Your task to perform on an android device: Search for razer blackwidow on ebay, select the first entry, add it to the cart, then select checkout. Image 0: 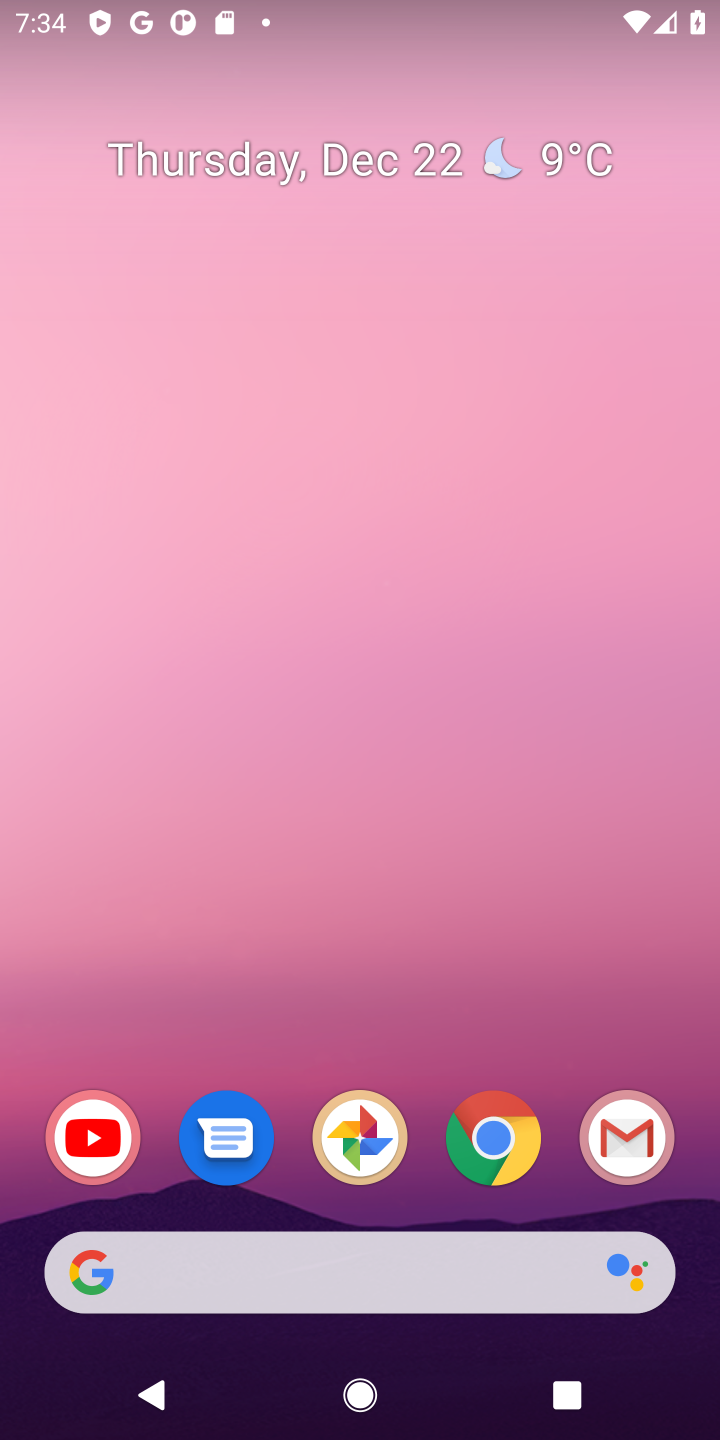
Step 0: press home button
Your task to perform on an android device: Search for razer blackwidow on ebay, select the first entry, add it to the cart, then select checkout. Image 1: 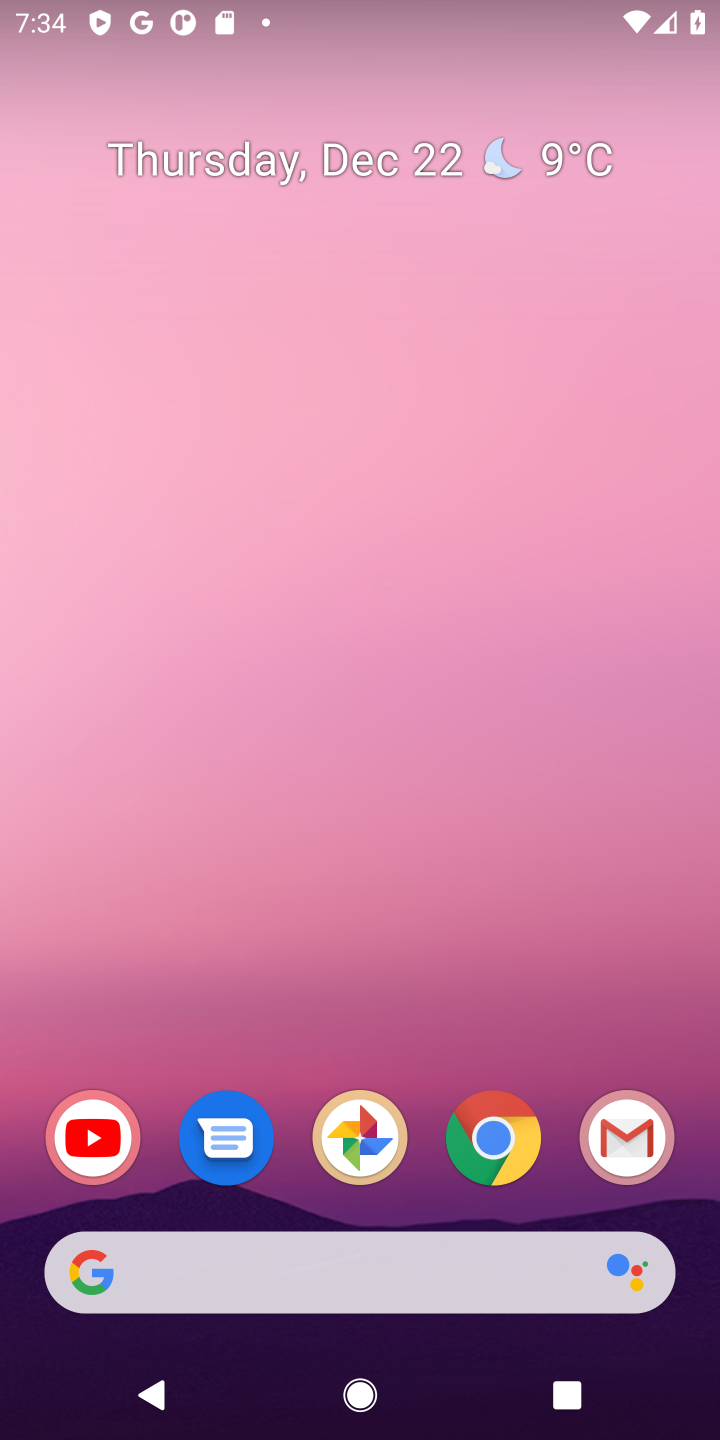
Step 1: click (514, 1114)
Your task to perform on an android device: Search for razer blackwidow on ebay, select the first entry, add it to the cart, then select checkout. Image 2: 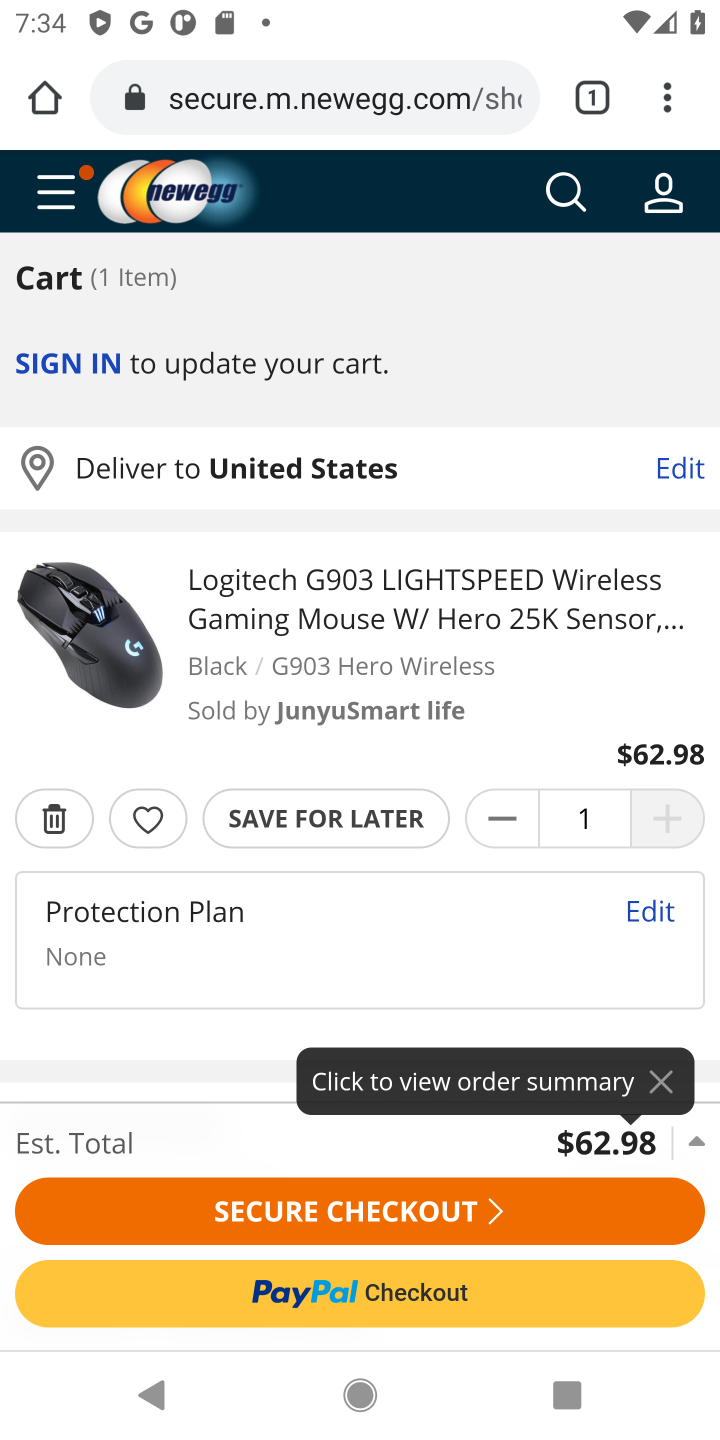
Step 2: click (383, 100)
Your task to perform on an android device: Search for razer blackwidow on ebay, select the first entry, add it to the cart, then select checkout. Image 3: 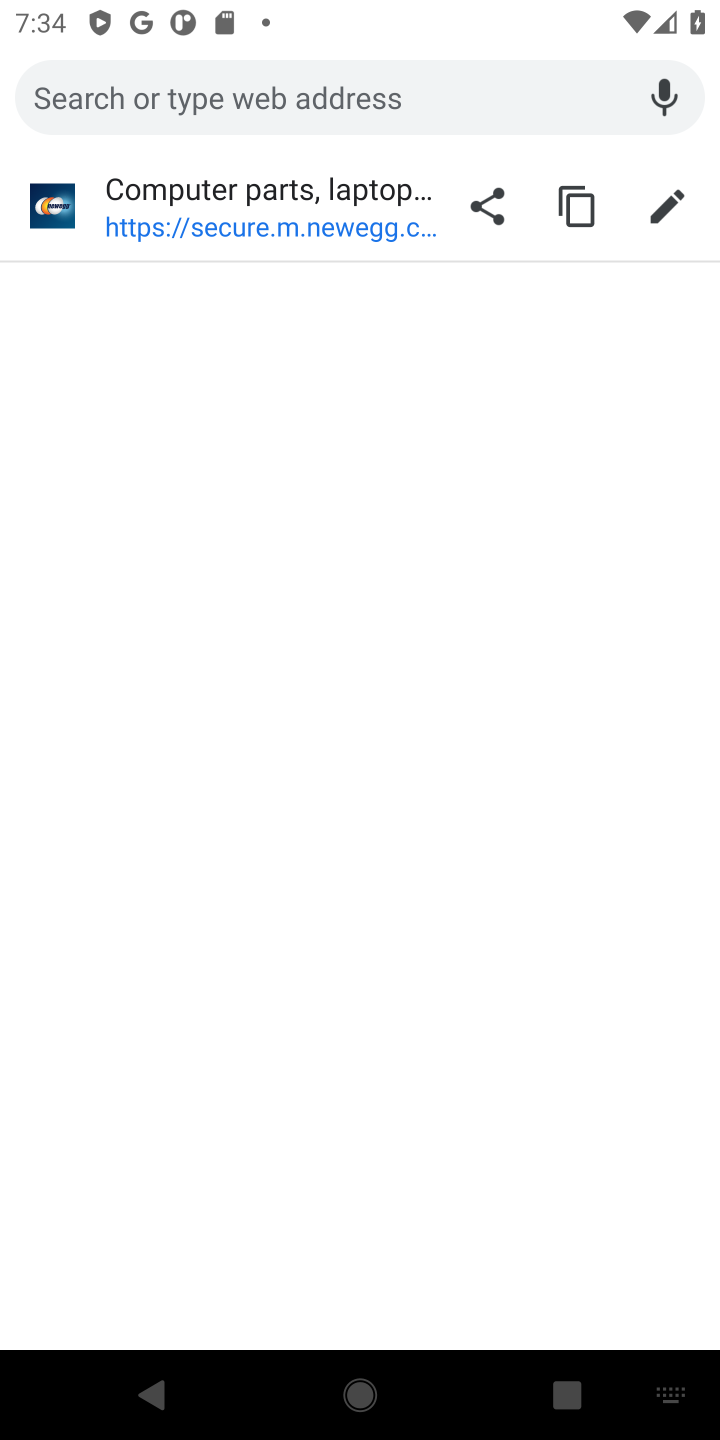
Step 3: type "ebay"
Your task to perform on an android device: Search for razer blackwidow on ebay, select the first entry, add it to the cart, then select checkout. Image 4: 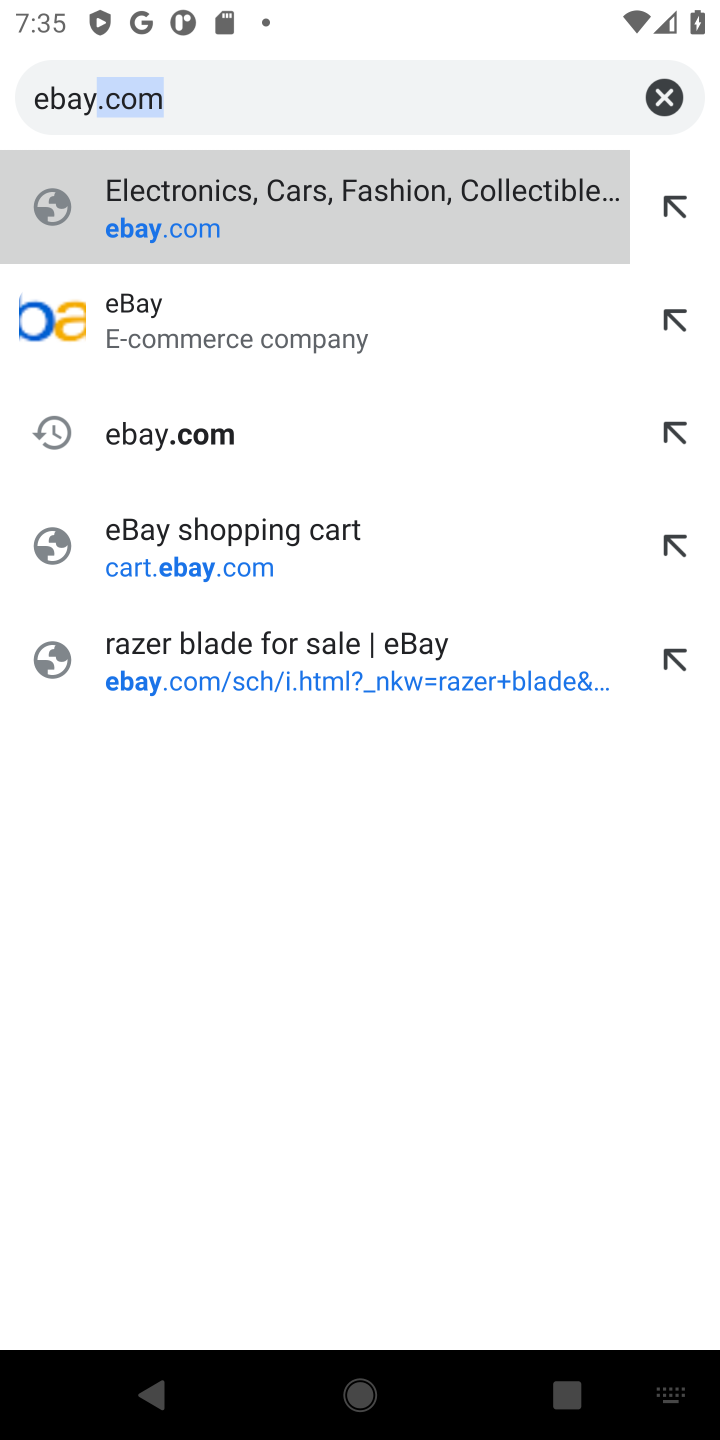
Step 4: click (210, 421)
Your task to perform on an android device: Search for razer blackwidow on ebay, select the first entry, add it to the cart, then select checkout. Image 5: 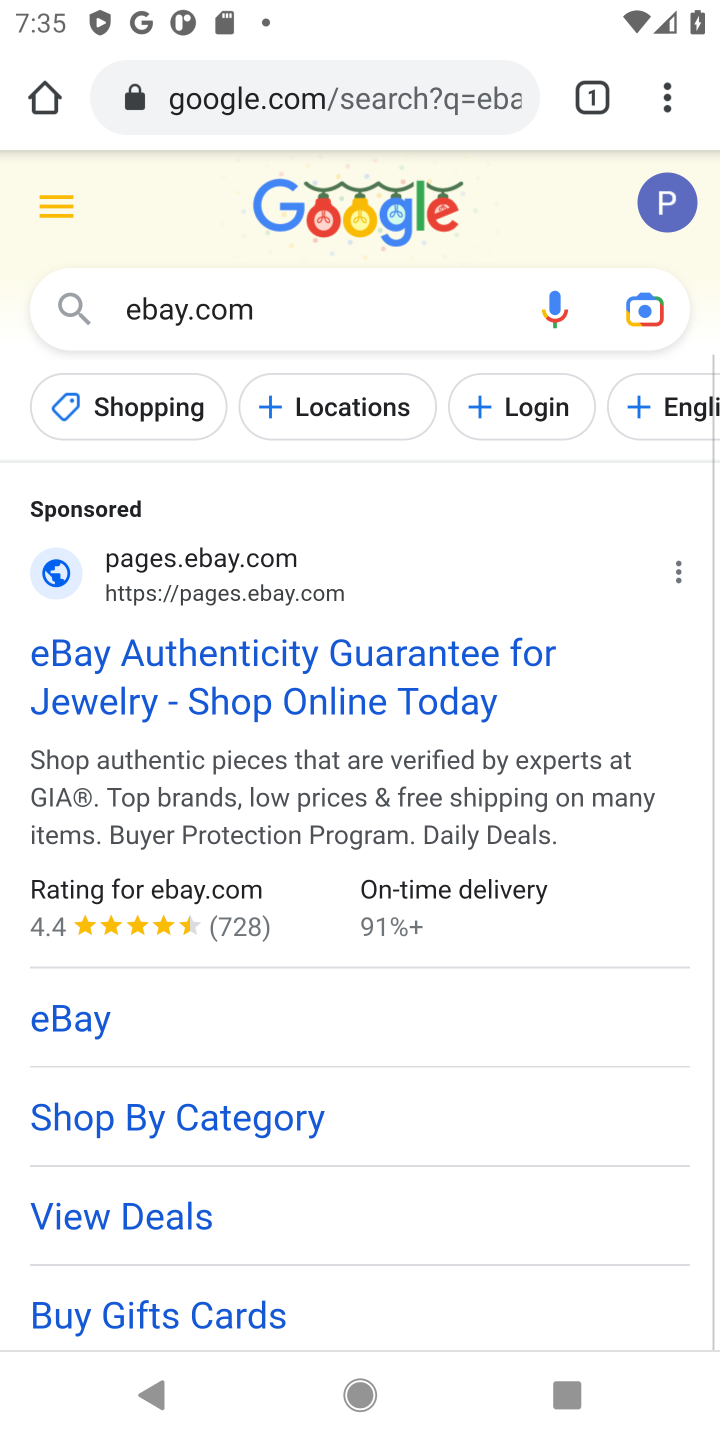
Step 5: drag from (347, 1119) to (262, 812)
Your task to perform on an android device: Search for razer blackwidow on ebay, select the first entry, add it to the cart, then select checkout. Image 6: 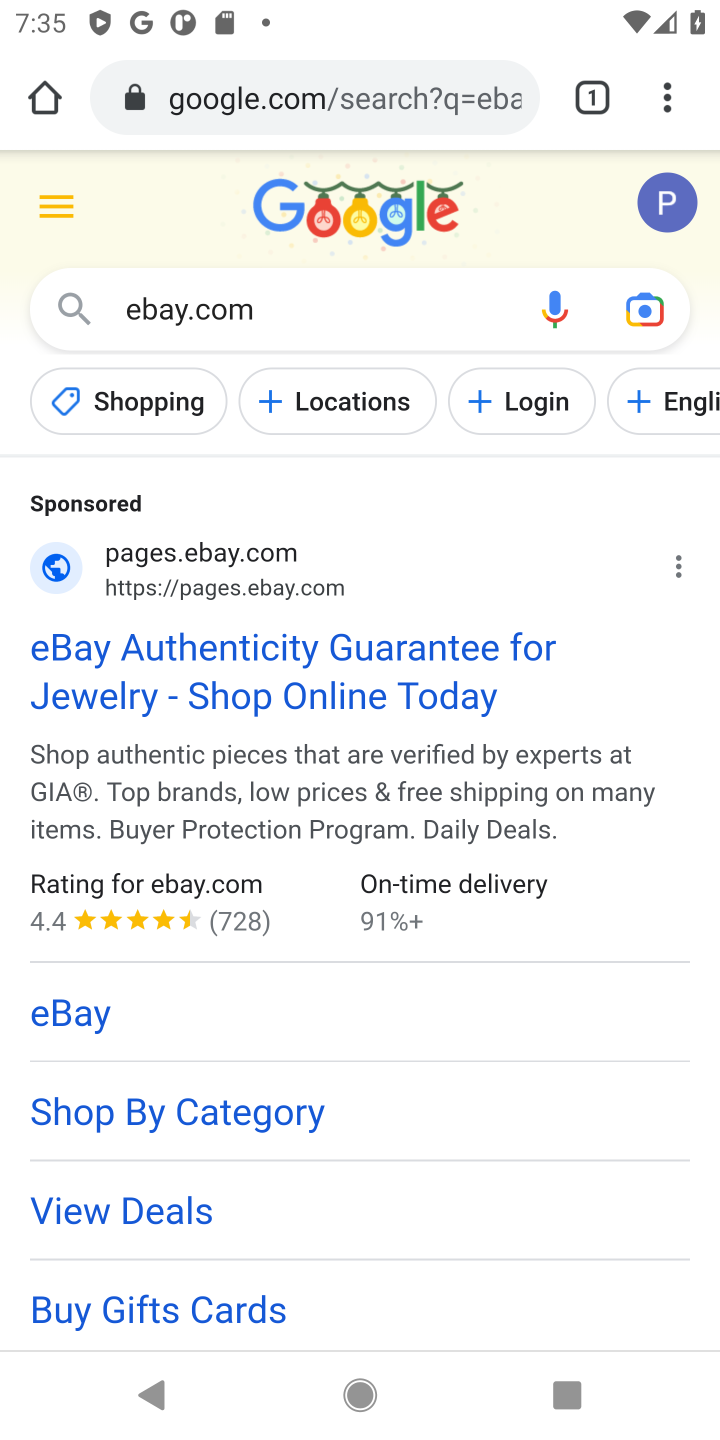
Step 6: click (262, 586)
Your task to perform on an android device: Search for razer blackwidow on ebay, select the first entry, add it to the cart, then select checkout. Image 7: 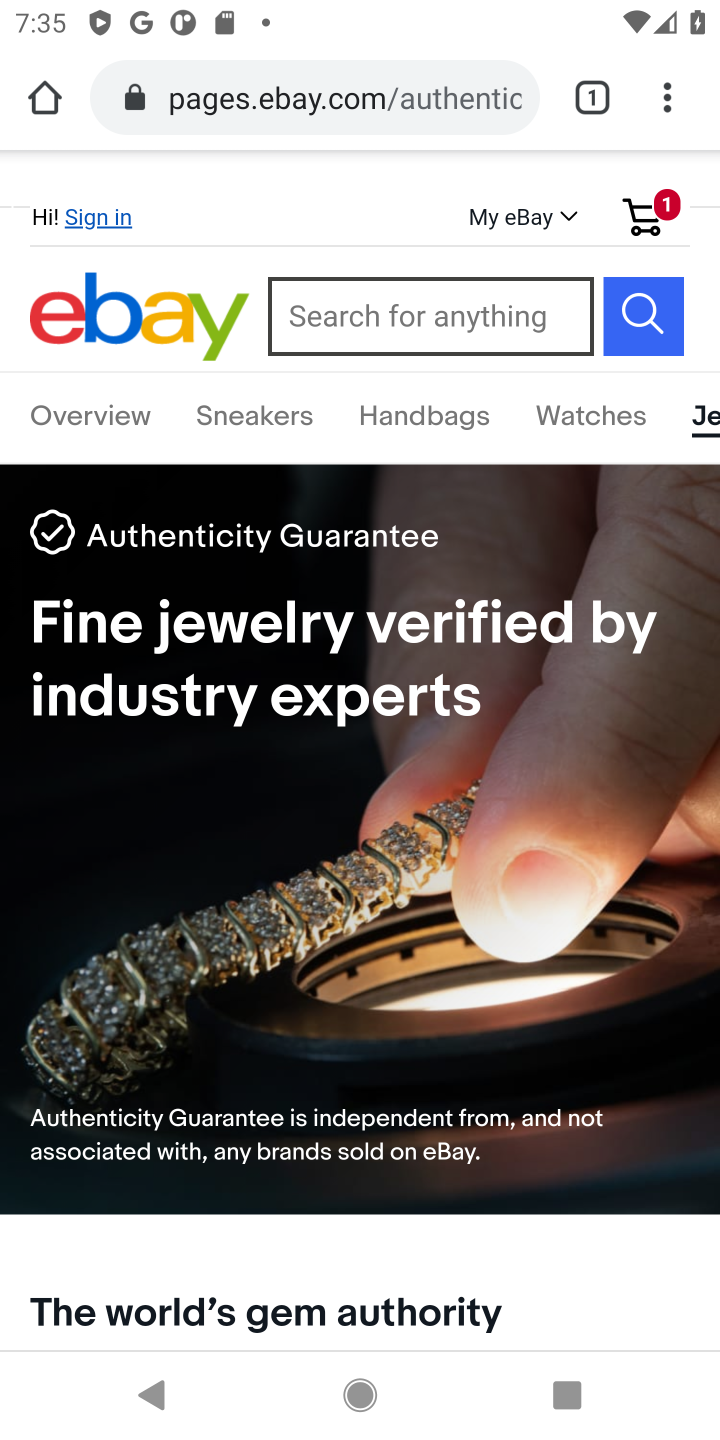
Step 7: click (433, 300)
Your task to perform on an android device: Search for razer blackwidow on ebay, select the first entry, add it to the cart, then select checkout. Image 8: 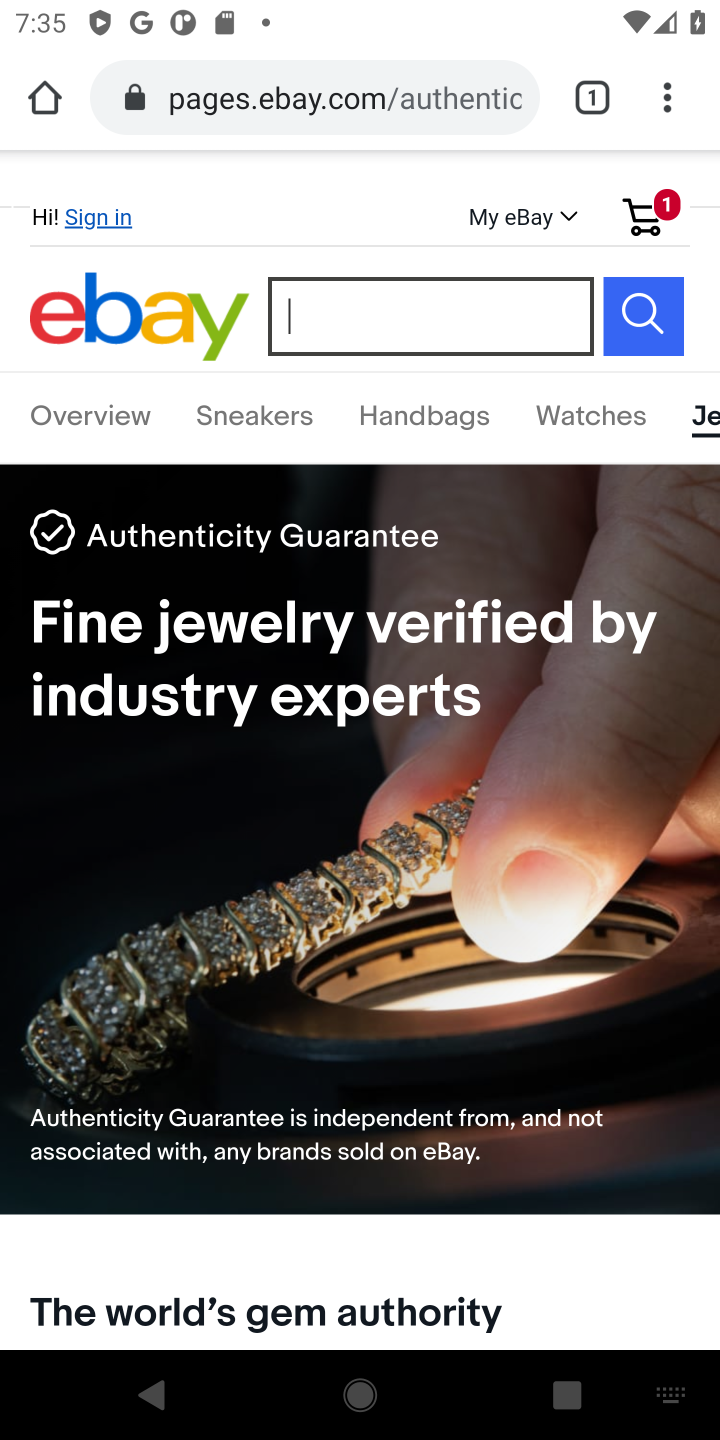
Step 8: type "razer blackwidow"
Your task to perform on an android device: Search for razer blackwidow on ebay, select the first entry, add it to the cart, then select checkout. Image 9: 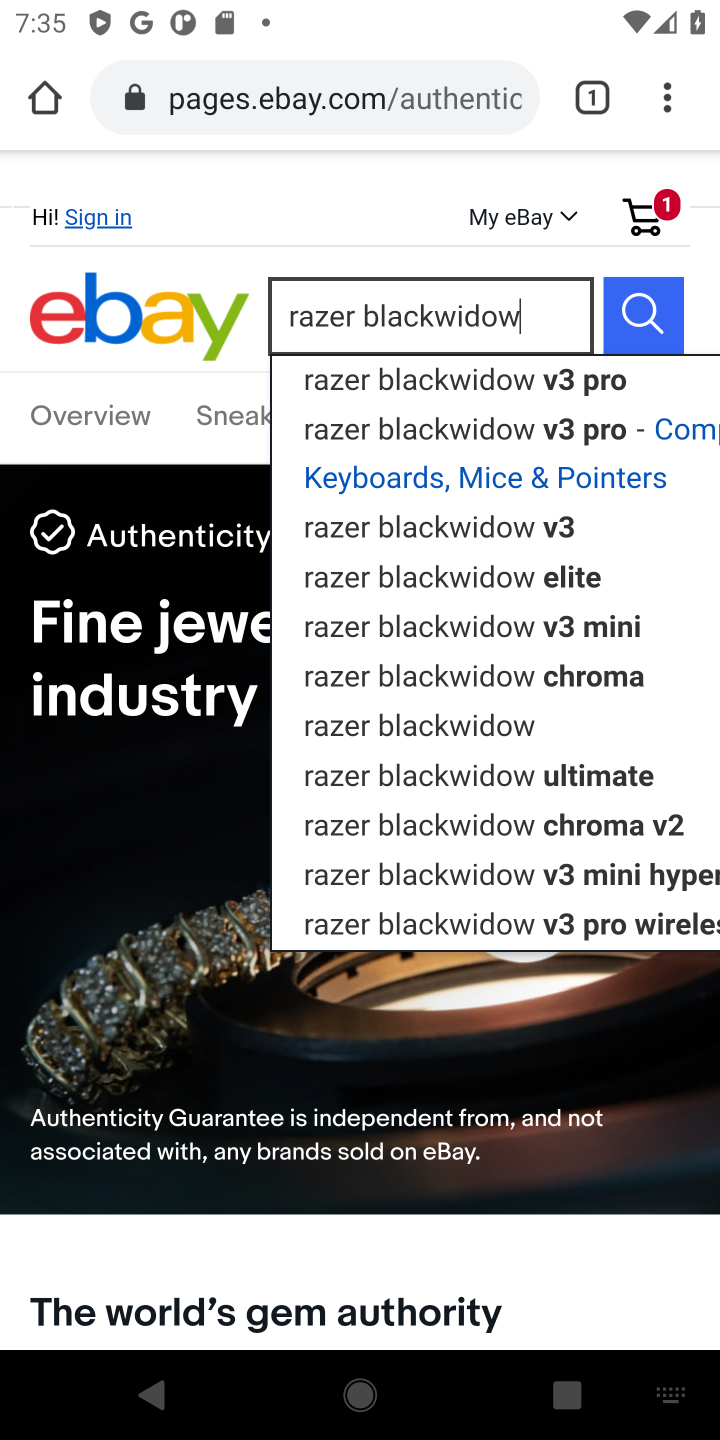
Step 9: click (651, 308)
Your task to perform on an android device: Search for razer blackwidow on ebay, select the first entry, add it to the cart, then select checkout. Image 10: 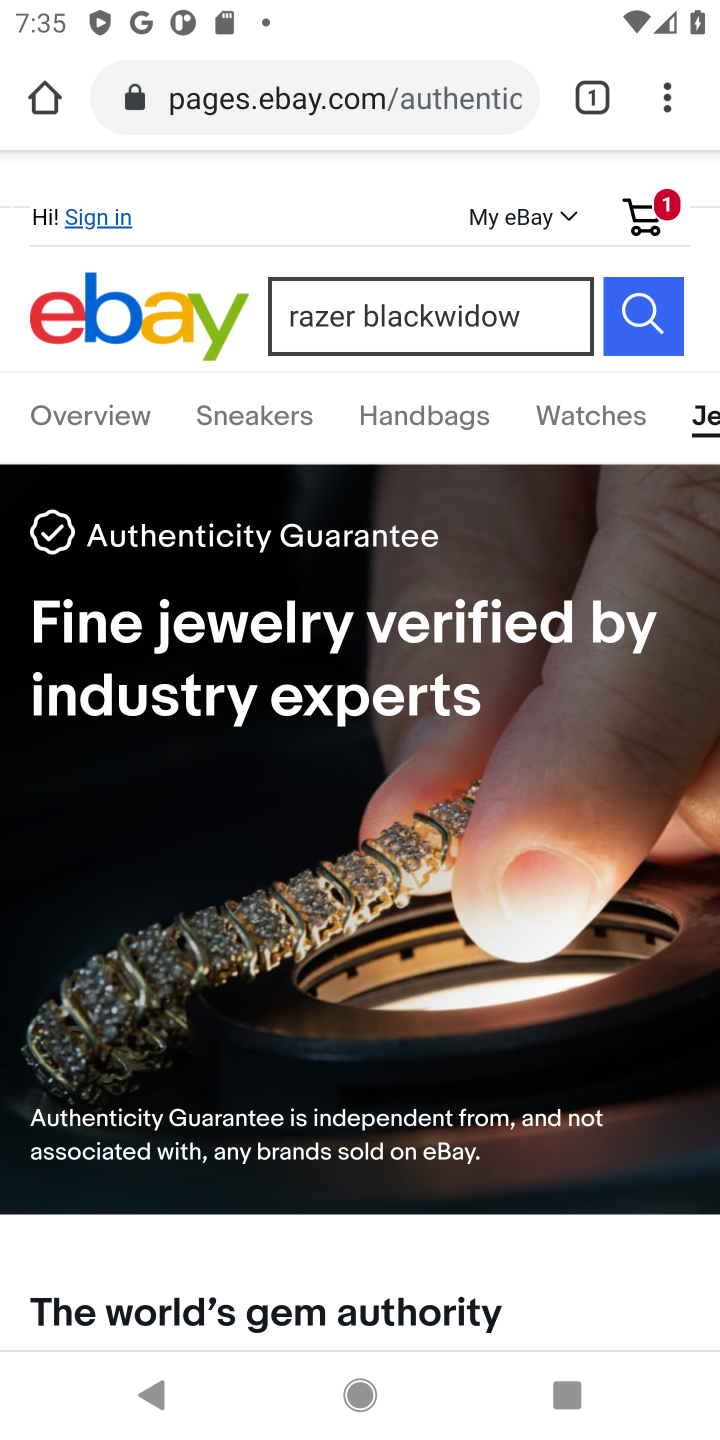
Step 10: click (642, 318)
Your task to perform on an android device: Search for razer blackwidow on ebay, select the first entry, add it to the cart, then select checkout. Image 11: 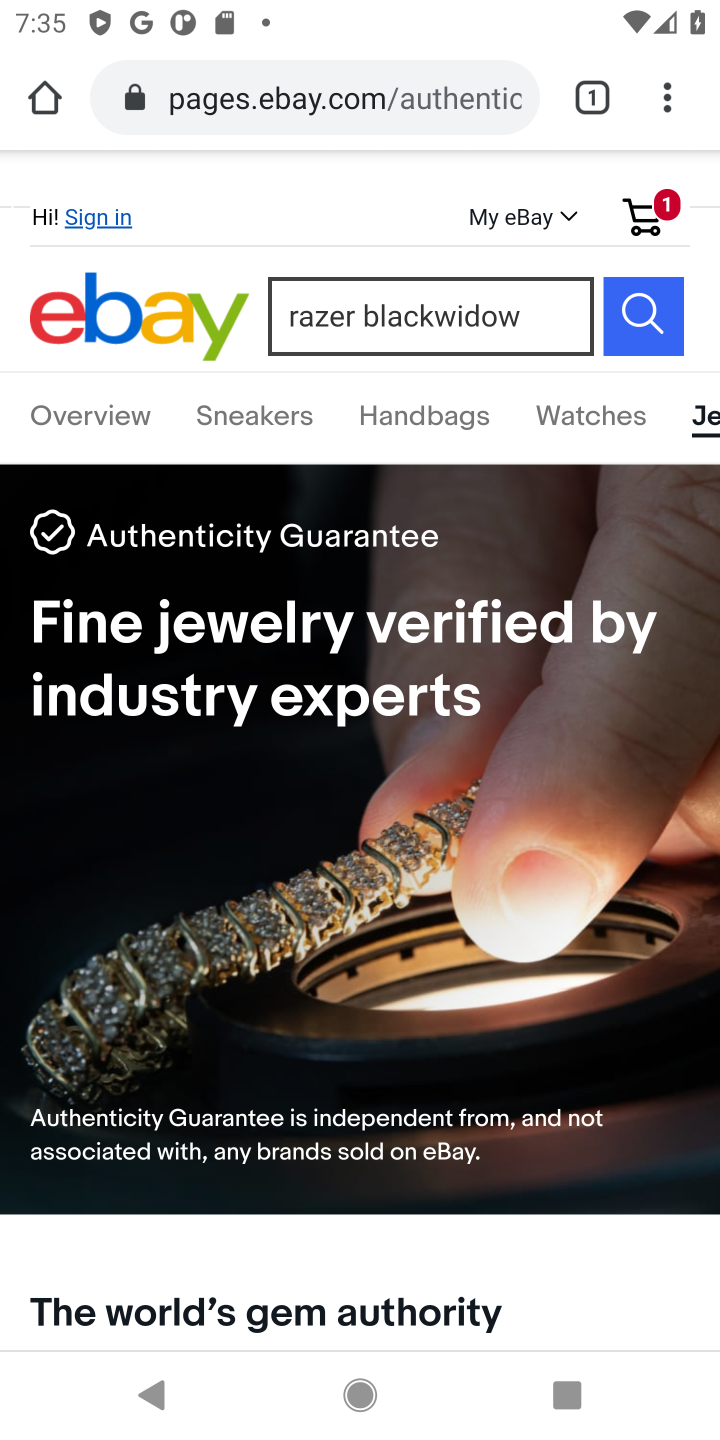
Step 11: click (642, 318)
Your task to perform on an android device: Search for razer blackwidow on ebay, select the first entry, add it to the cart, then select checkout. Image 12: 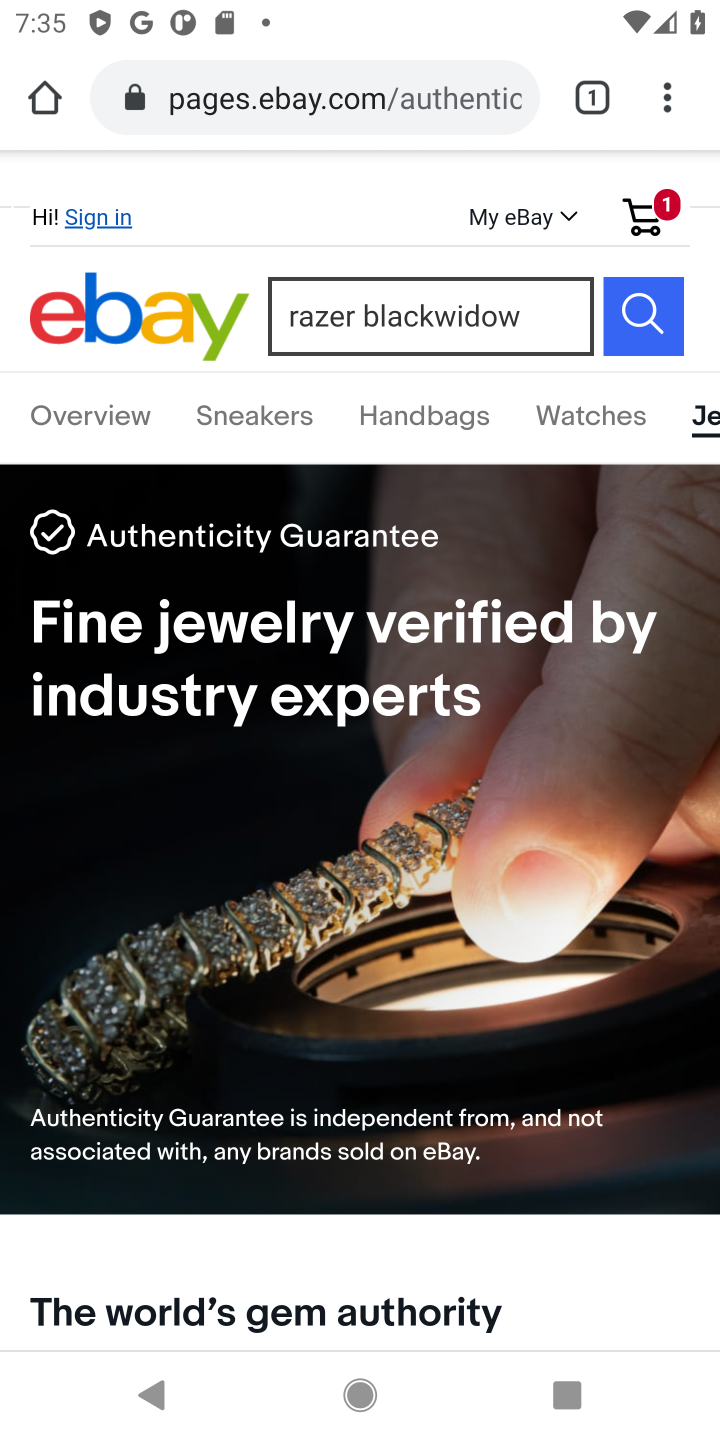
Step 12: click (640, 331)
Your task to perform on an android device: Search for razer blackwidow on ebay, select the first entry, add it to the cart, then select checkout. Image 13: 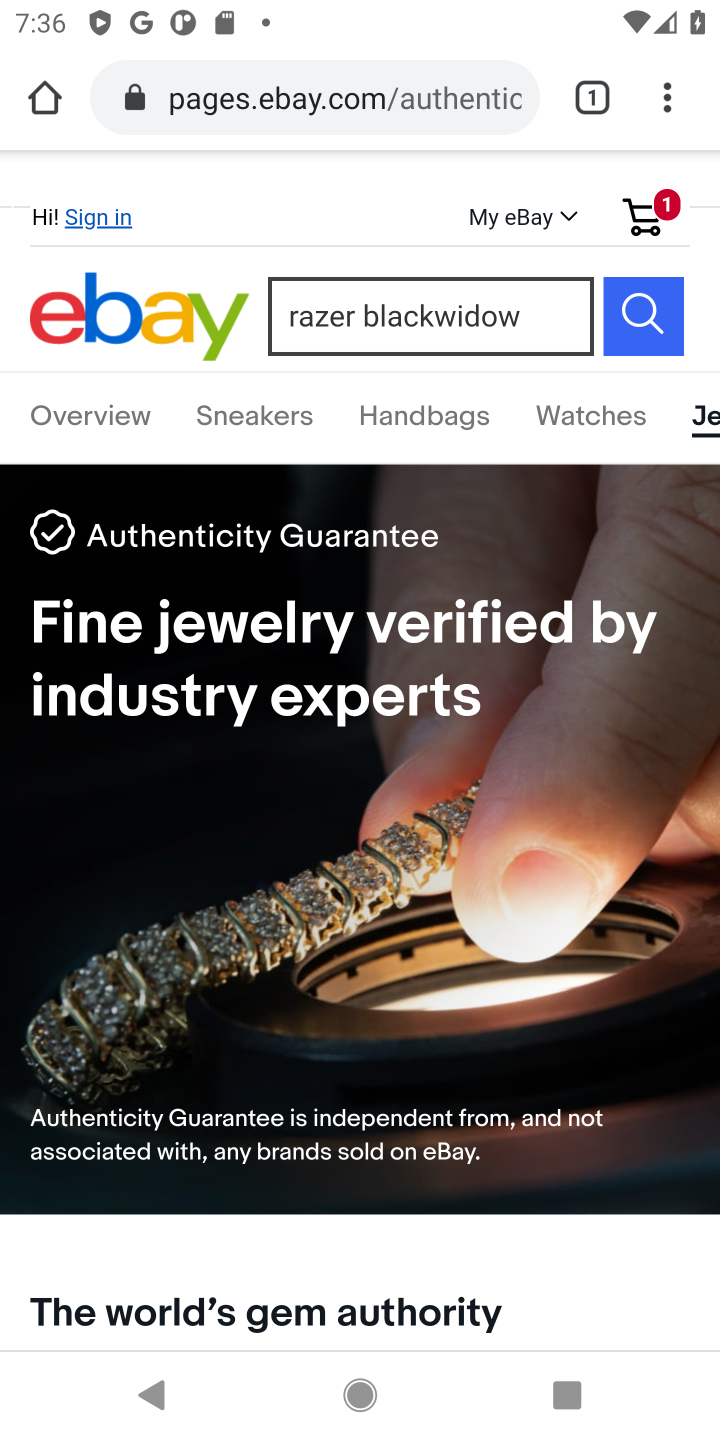
Step 13: click (656, 307)
Your task to perform on an android device: Search for razer blackwidow on ebay, select the first entry, add it to the cart, then select checkout. Image 14: 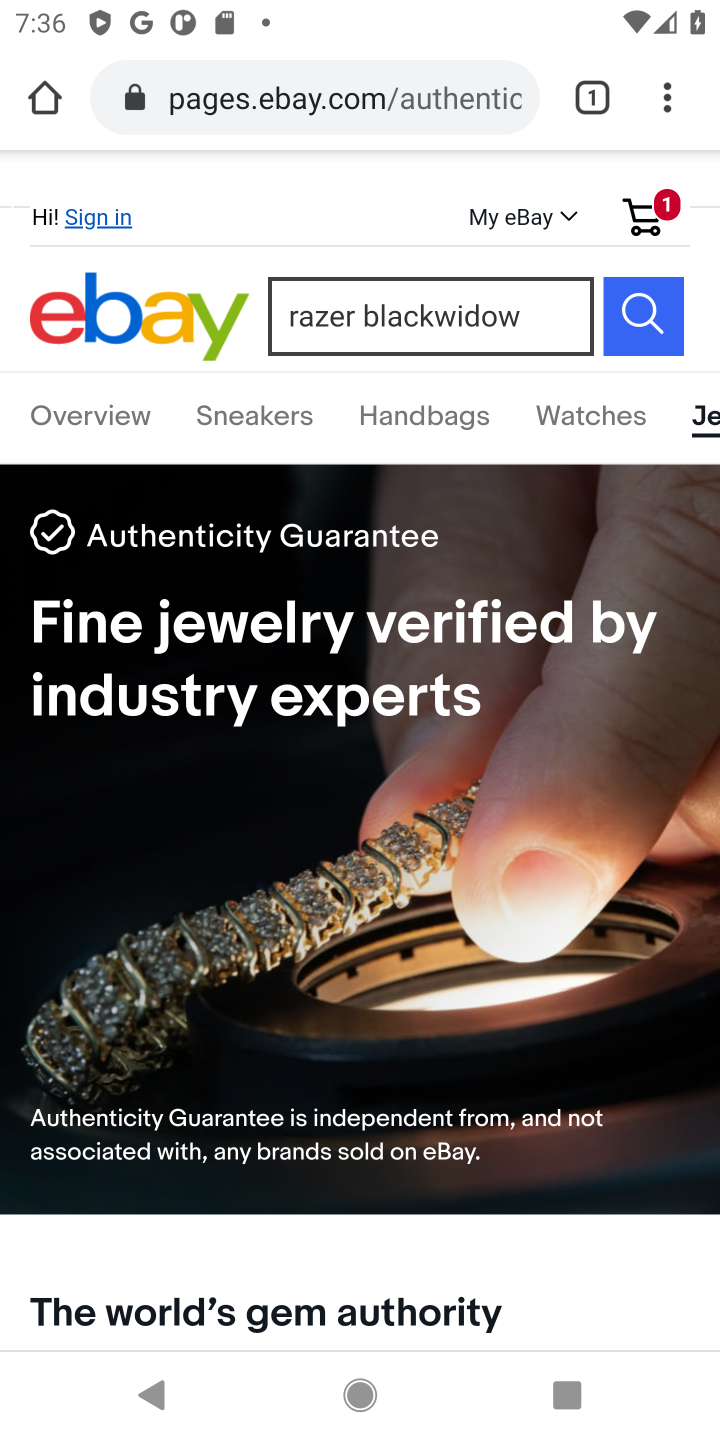
Step 14: click (656, 307)
Your task to perform on an android device: Search for razer blackwidow on ebay, select the first entry, add it to the cart, then select checkout. Image 15: 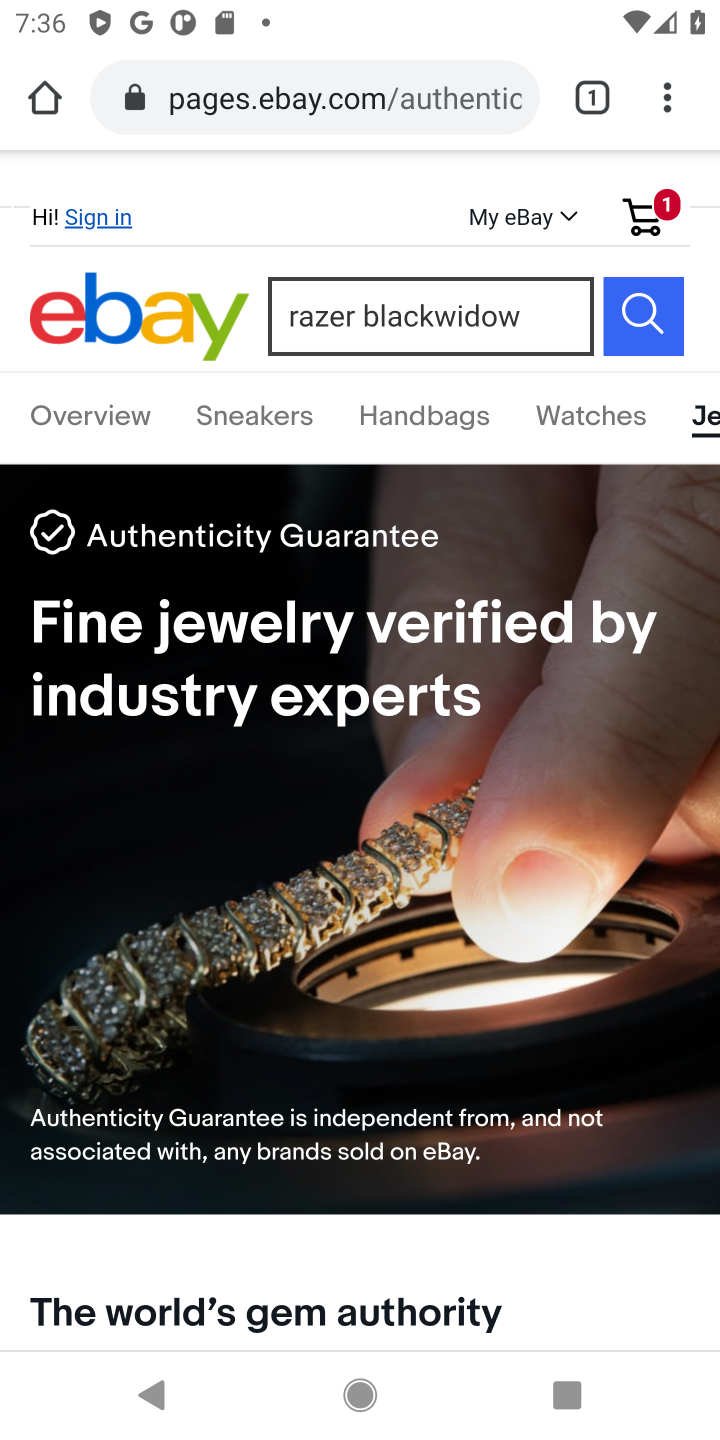
Step 15: click (640, 322)
Your task to perform on an android device: Search for razer blackwidow on ebay, select the first entry, add it to the cart, then select checkout. Image 16: 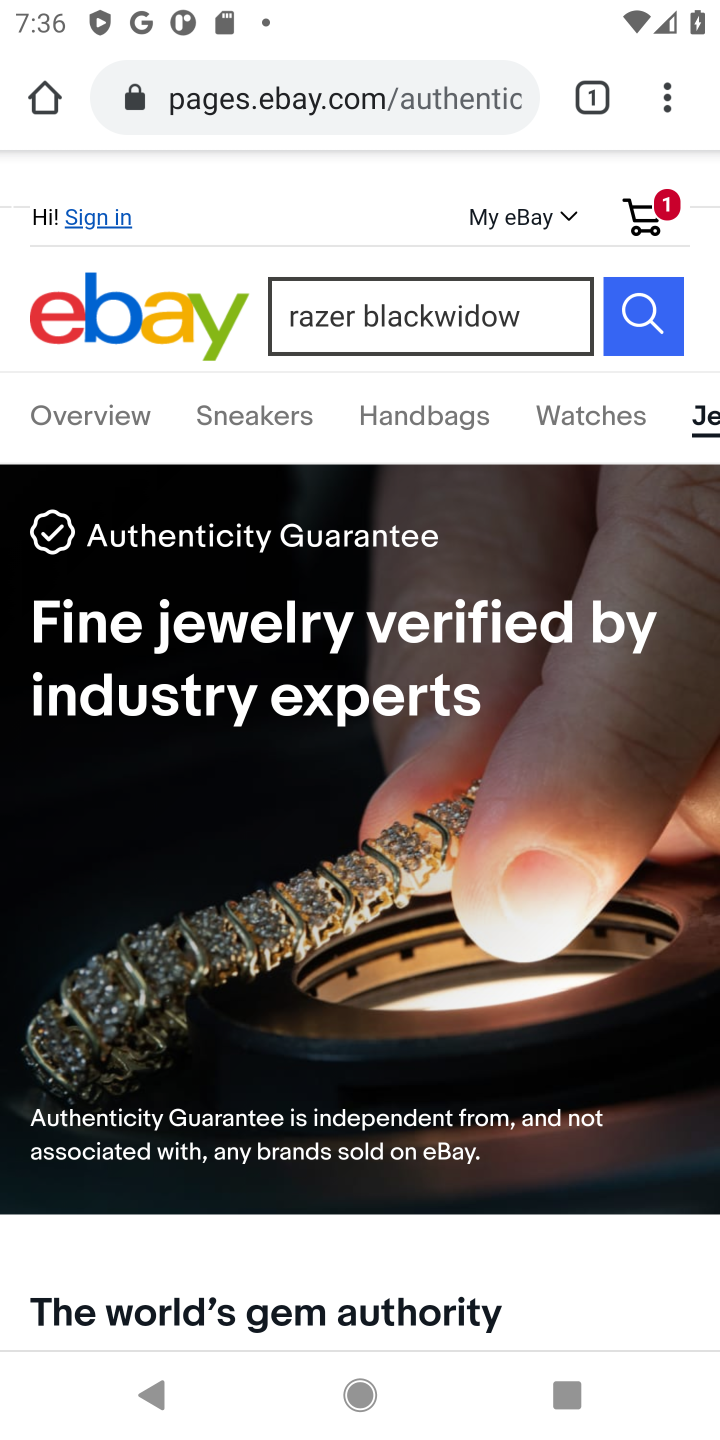
Step 16: click (640, 322)
Your task to perform on an android device: Search for razer blackwidow on ebay, select the first entry, add it to the cart, then select checkout. Image 17: 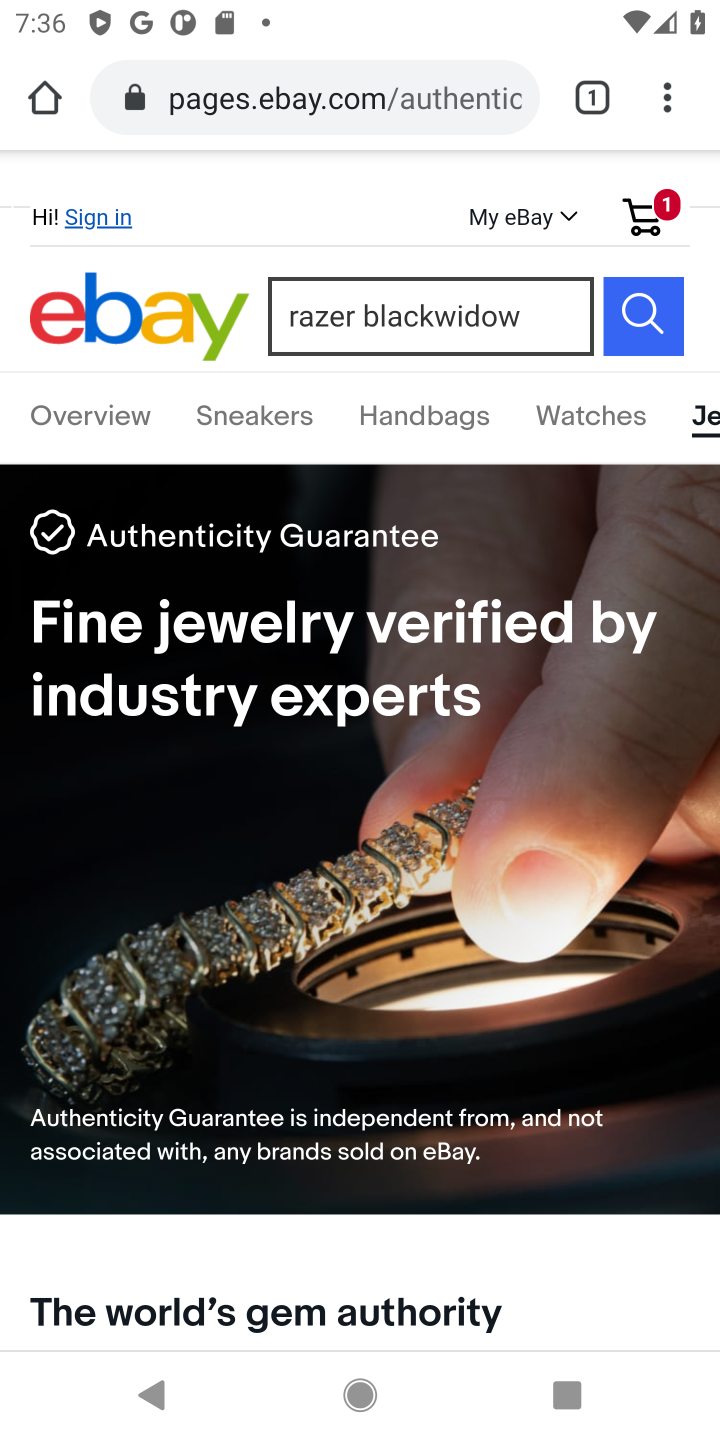
Step 17: click (640, 322)
Your task to perform on an android device: Search for razer blackwidow on ebay, select the first entry, add it to the cart, then select checkout. Image 18: 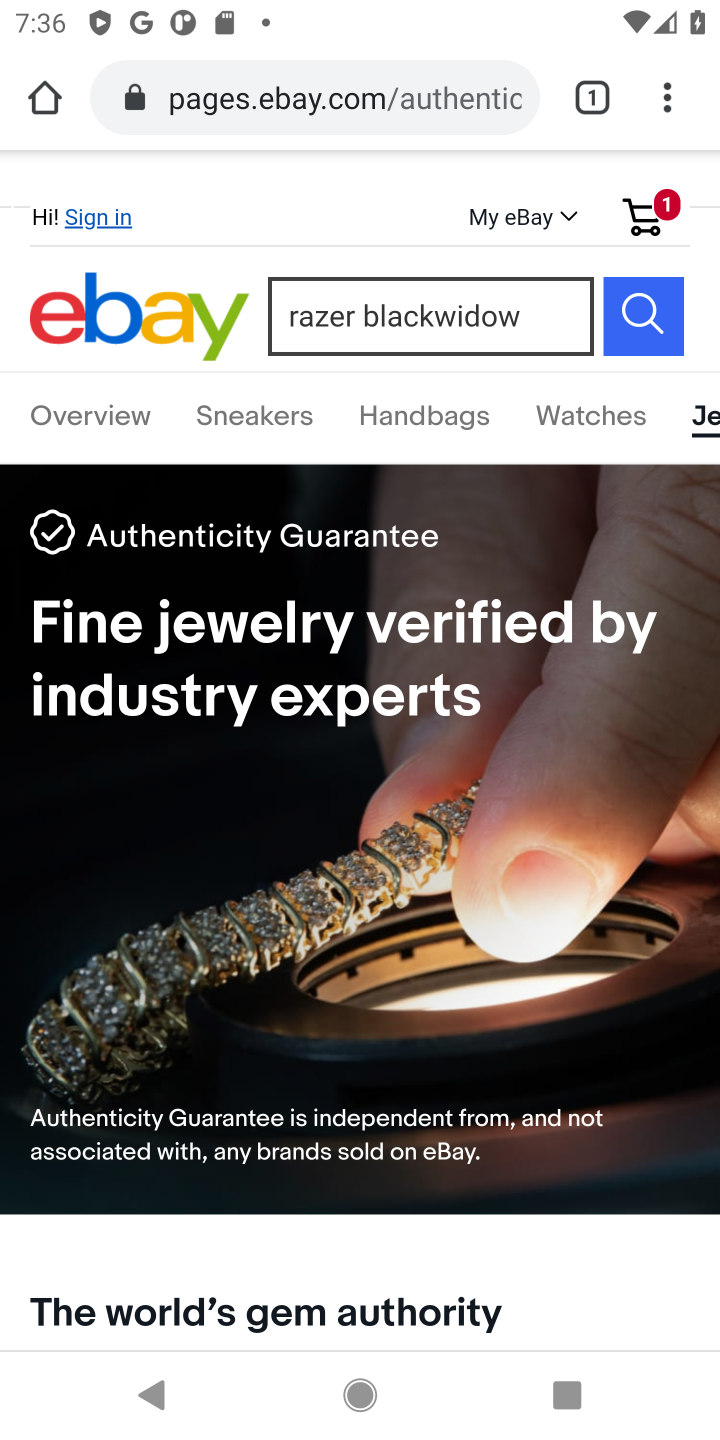
Step 18: press back button
Your task to perform on an android device: Search for razer blackwidow on ebay, select the first entry, add it to the cart, then select checkout. Image 19: 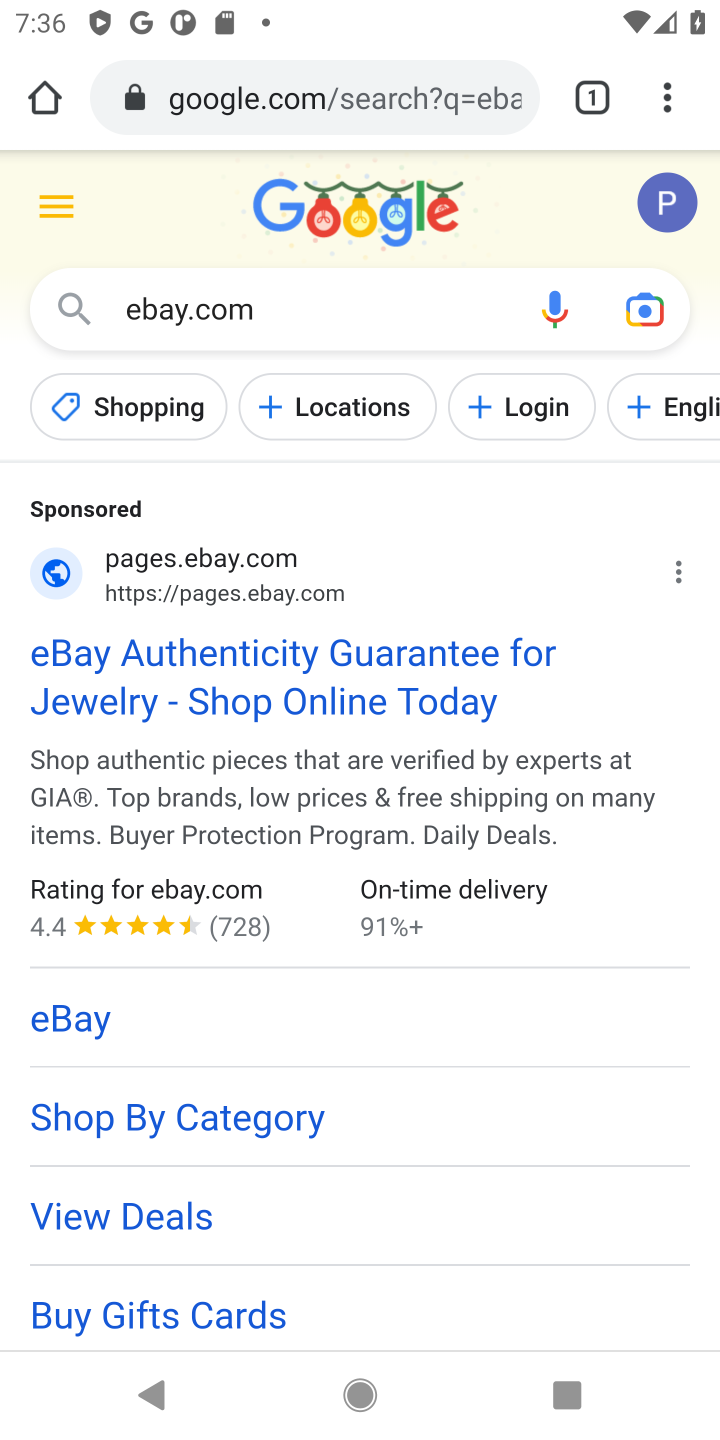
Step 19: drag from (270, 1231) to (411, 814)
Your task to perform on an android device: Search for razer blackwidow on ebay, select the first entry, add it to the cart, then select checkout. Image 20: 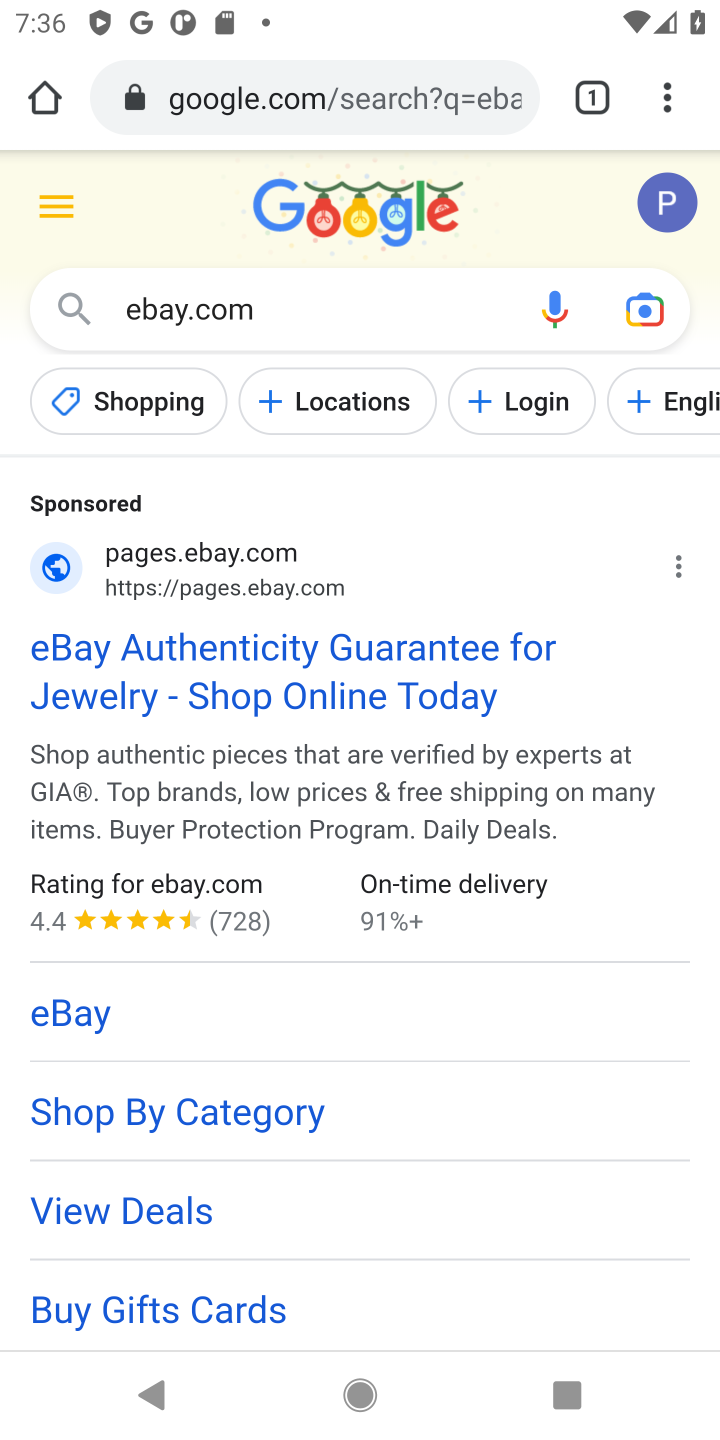
Step 20: drag from (359, 1160) to (249, 548)
Your task to perform on an android device: Search for razer blackwidow on ebay, select the first entry, add it to the cart, then select checkout. Image 21: 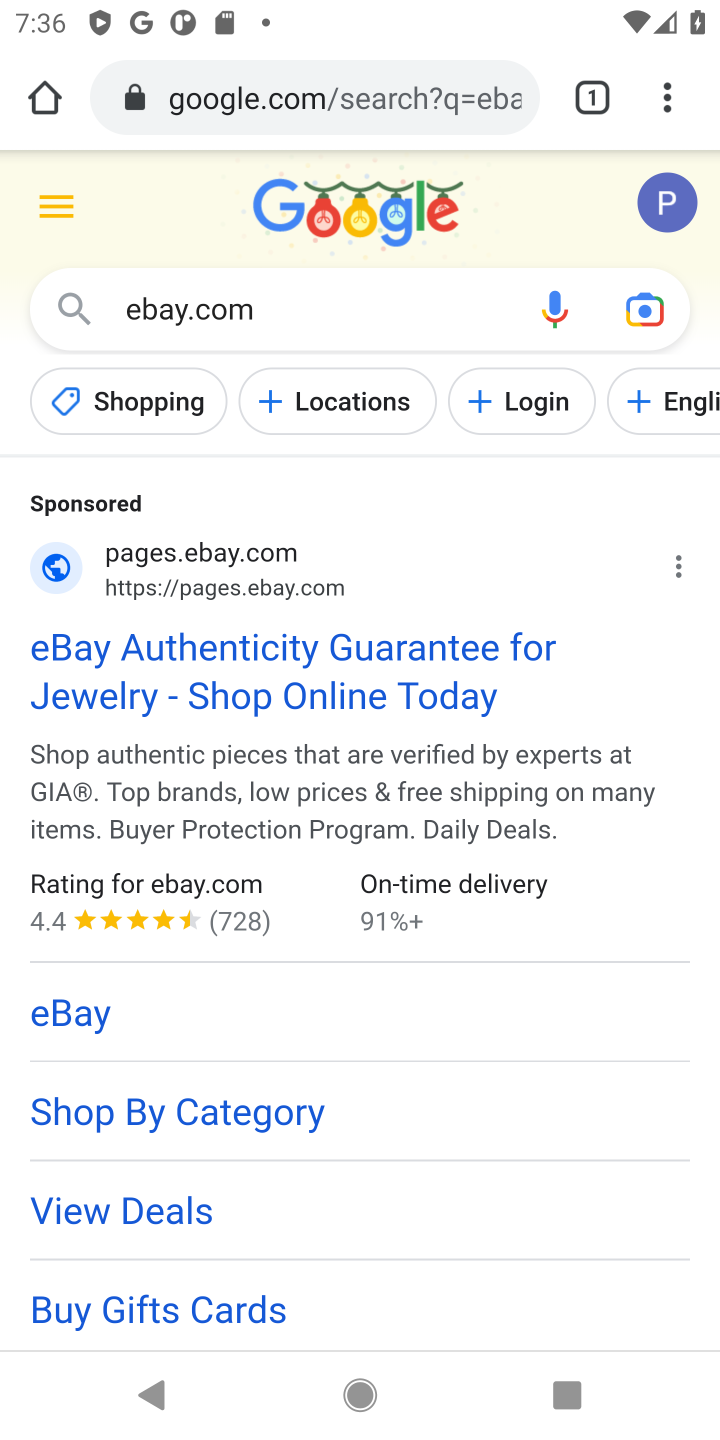
Step 21: click (286, 587)
Your task to perform on an android device: Search for razer blackwidow on ebay, select the first entry, add it to the cart, then select checkout. Image 22: 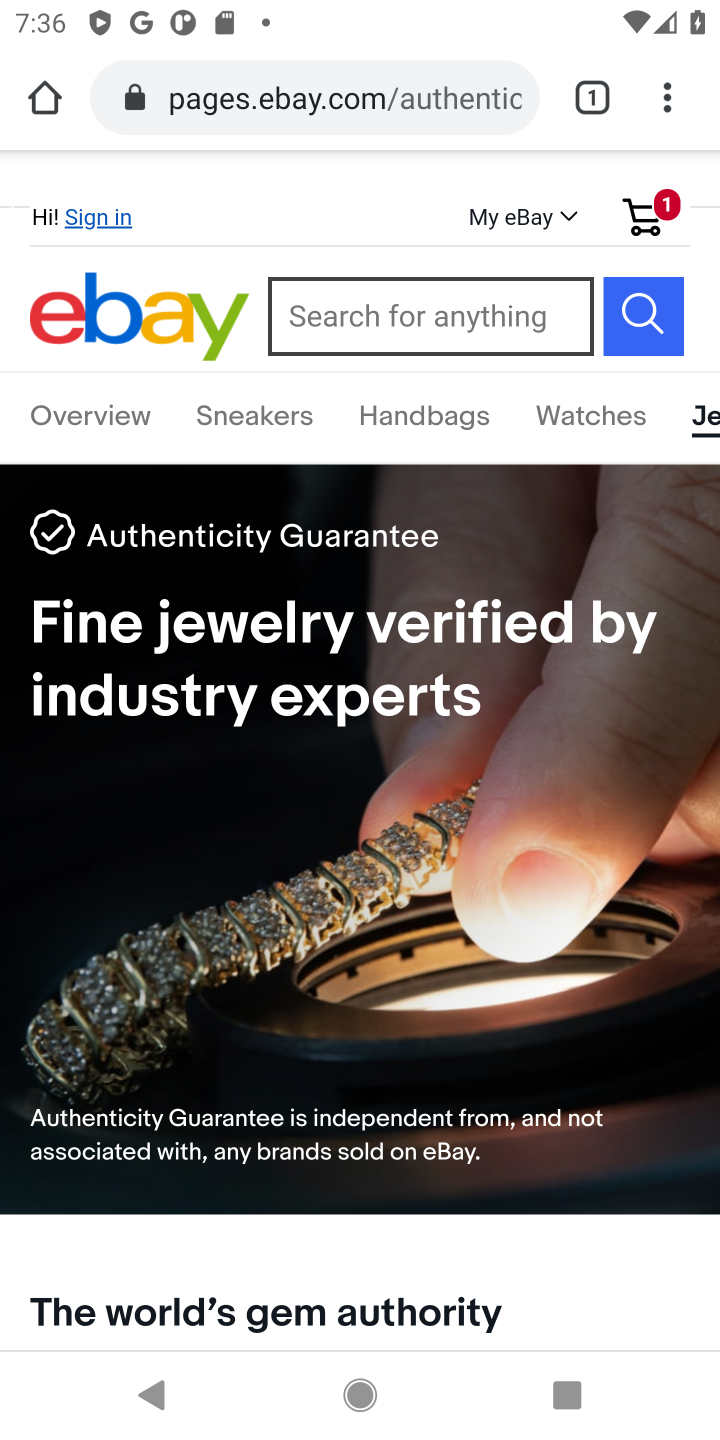
Step 22: click (535, 322)
Your task to perform on an android device: Search for razer blackwidow on ebay, select the first entry, add it to the cart, then select checkout. Image 23: 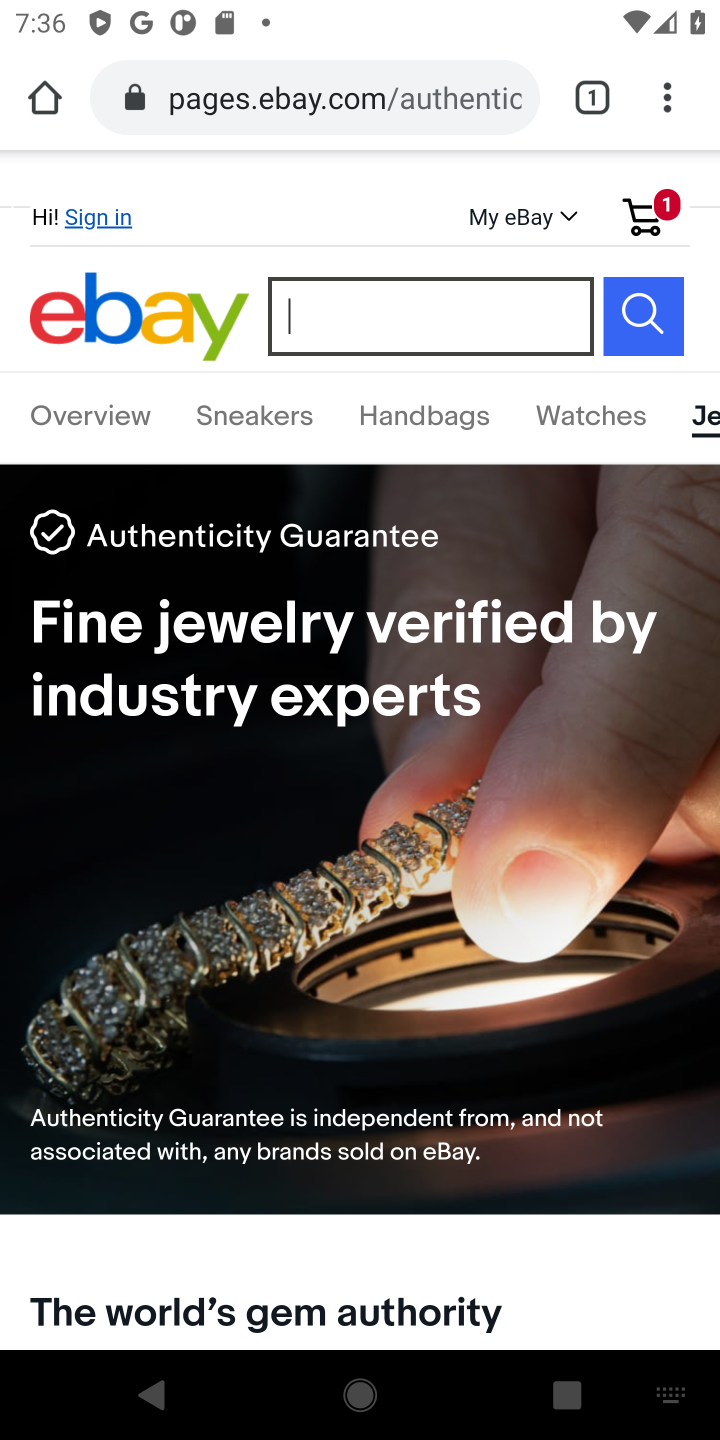
Step 23: type "razer blackwidow"
Your task to perform on an android device: Search for razer blackwidow on ebay, select the first entry, add it to the cart, then select checkout. Image 24: 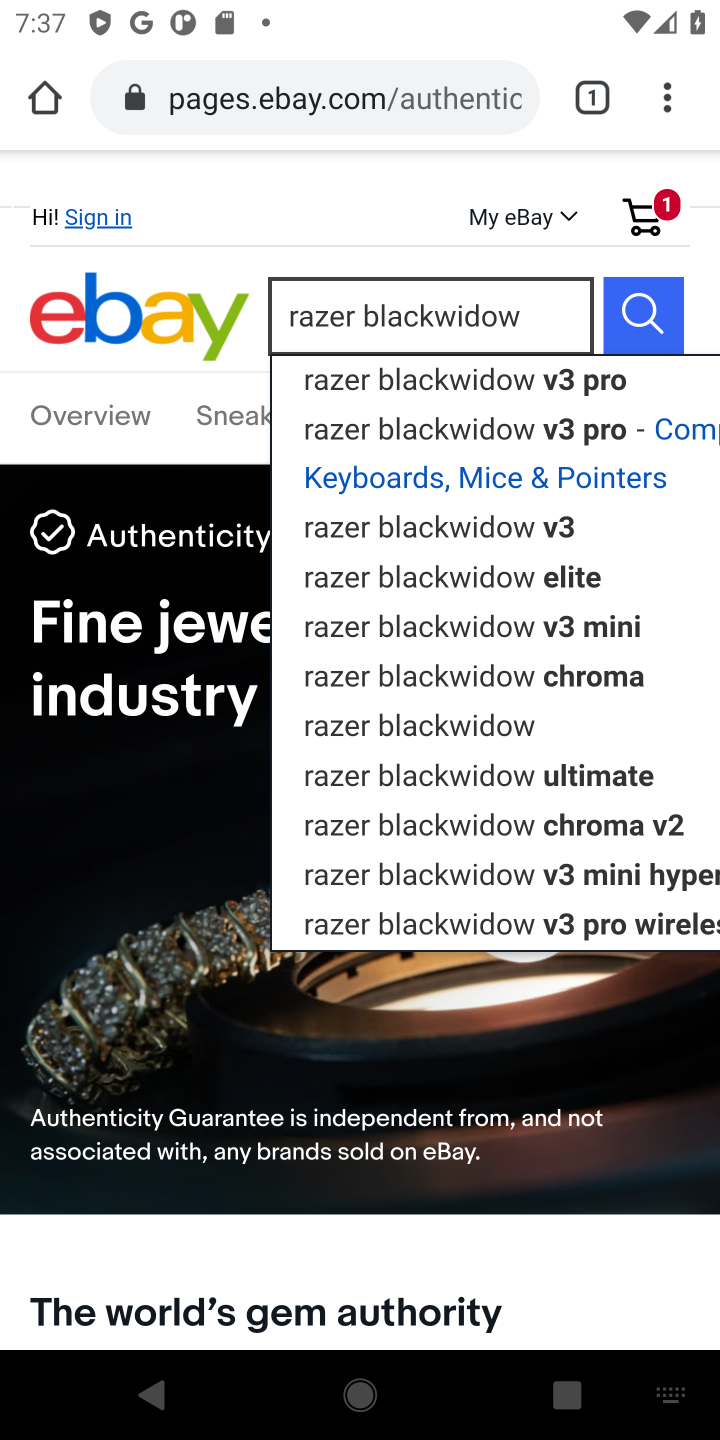
Step 24: click (503, 730)
Your task to perform on an android device: Search for razer blackwidow on ebay, select the first entry, add it to the cart, then select checkout. Image 25: 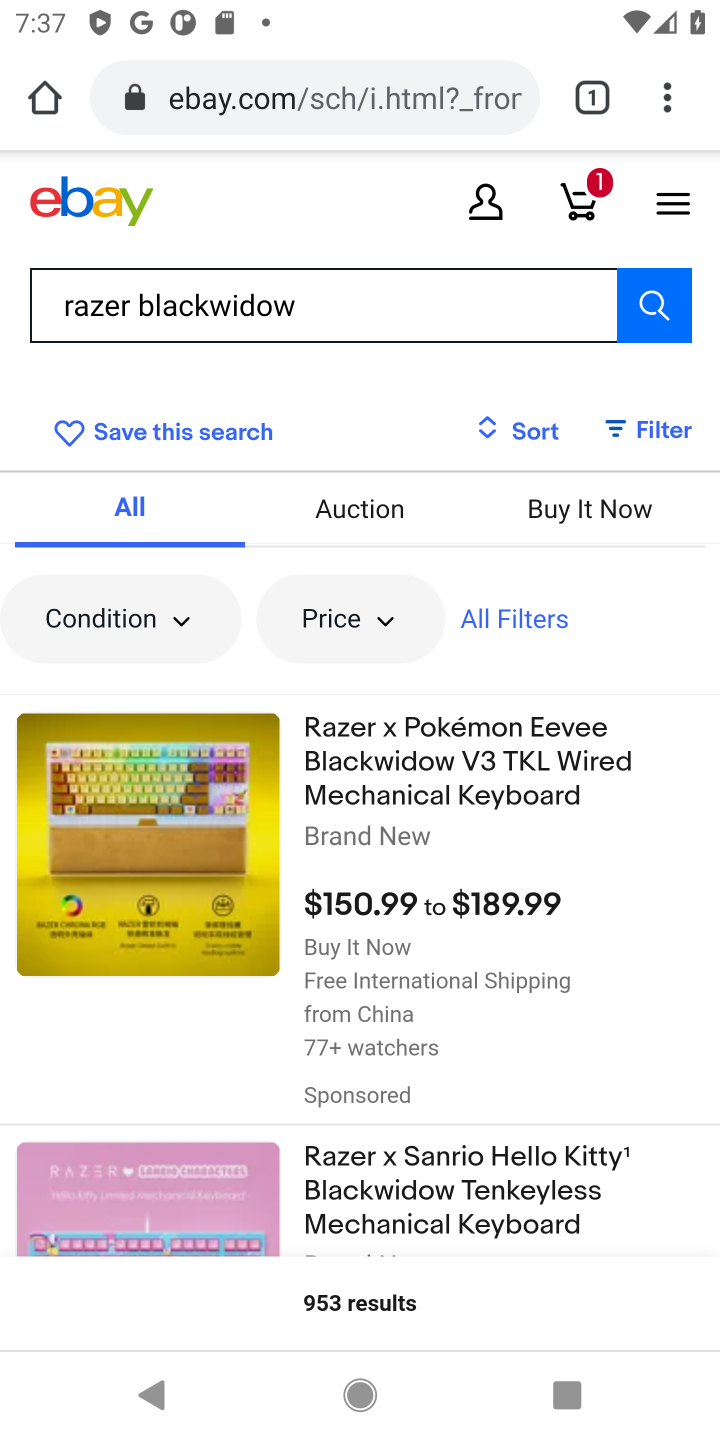
Step 25: drag from (262, 1219) to (249, 951)
Your task to perform on an android device: Search for razer blackwidow on ebay, select the first entry, add it to the cart, then select checkout. Image 26: 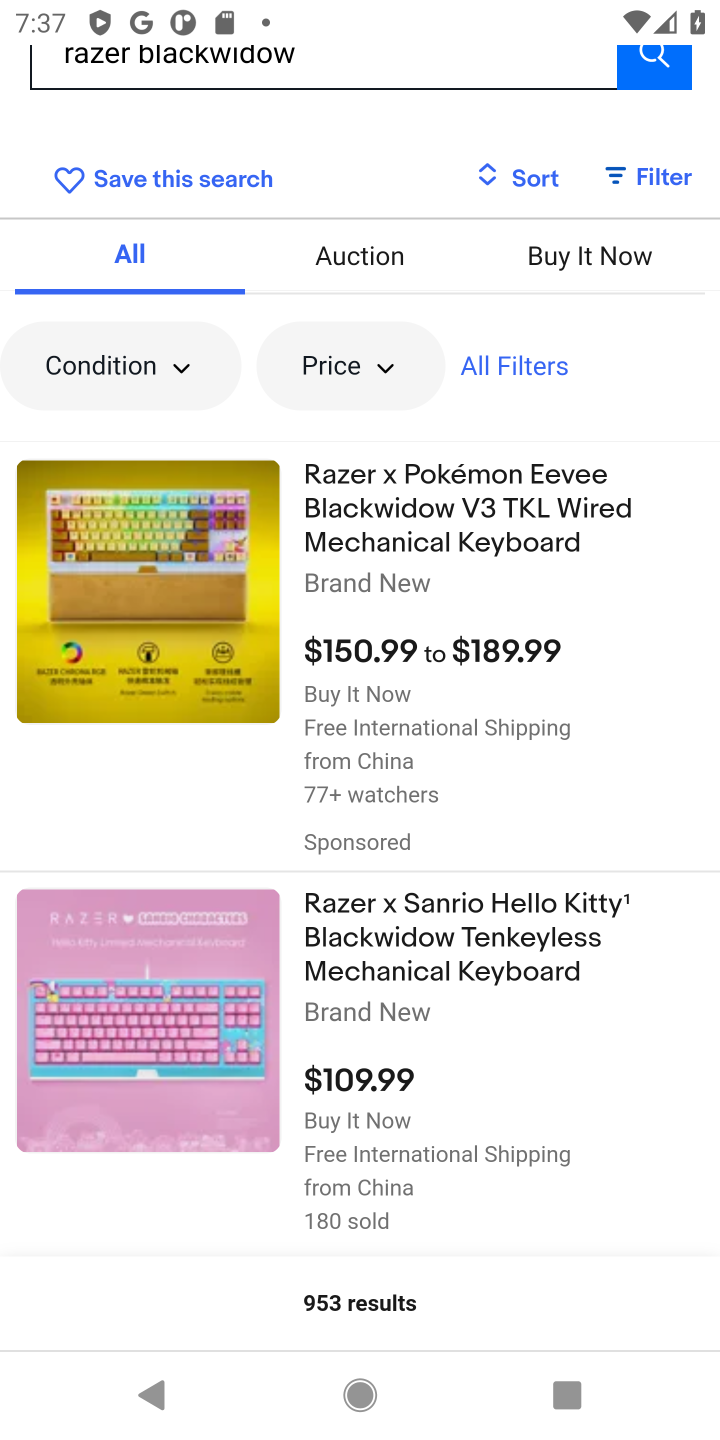
Step 26: click (201, 1033)
Your task to perform on an android device: Search for razer blackwidow on ebay, select the first entry, add it to the cart, then select checkout. Image 27: 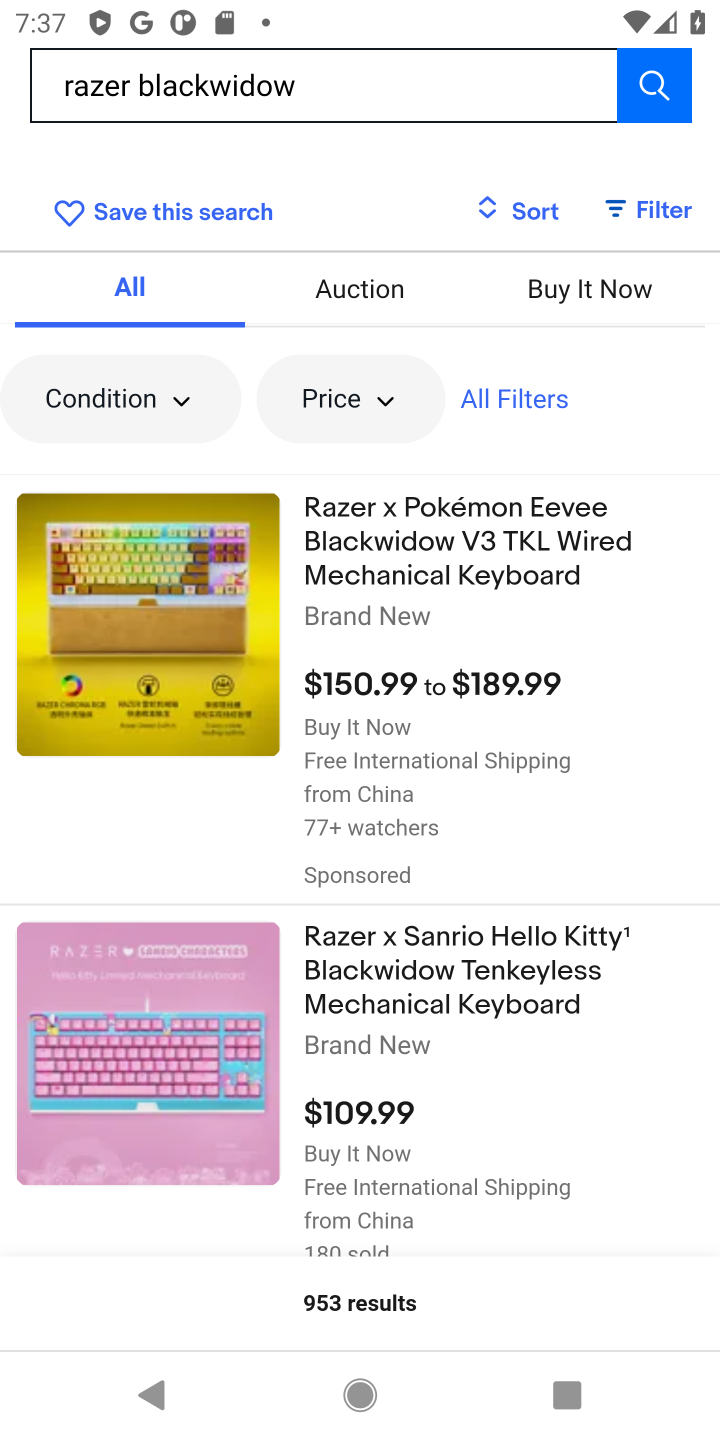
Step 27: click (134, 623)
Your task to perform on an android device: Search for razer blackwidow on ebay, select the first entry, add it to the cart, then select checkout. Image 28: 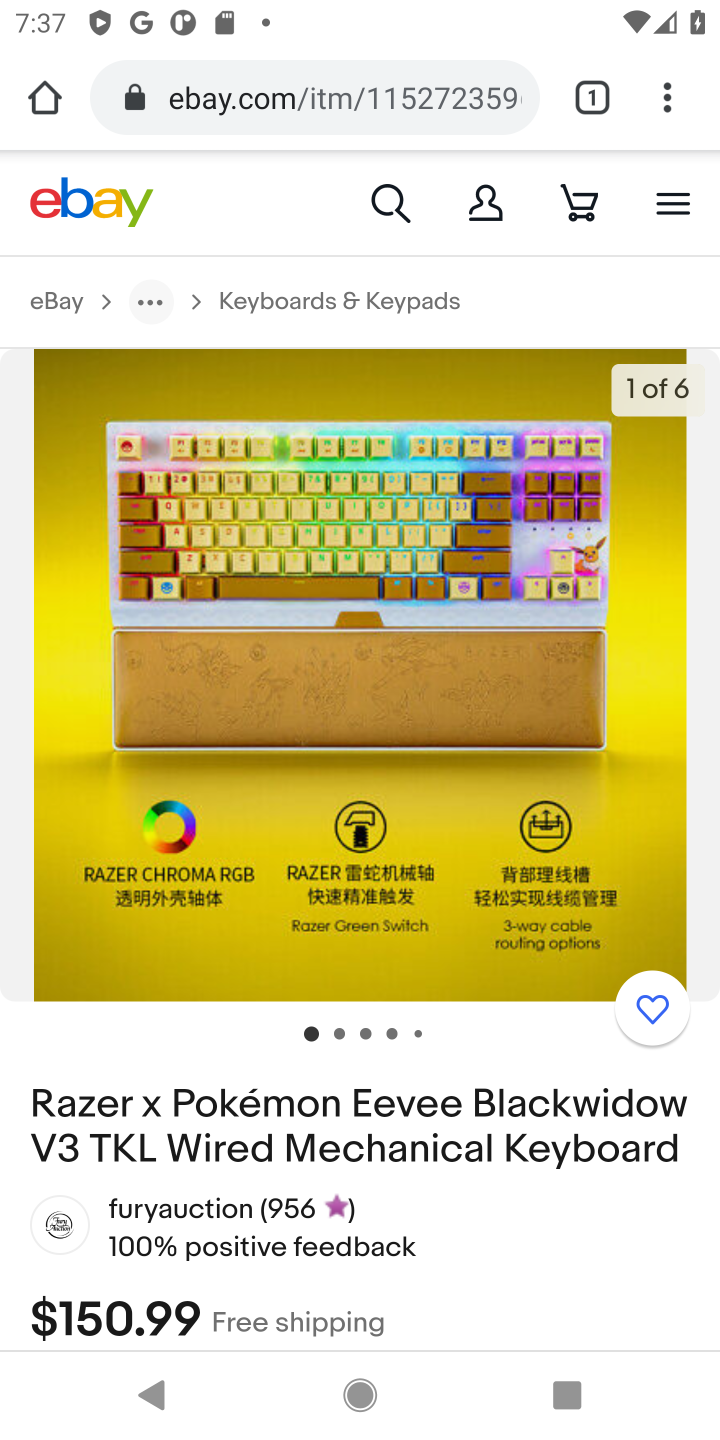
Step 28: drag from (449, 1099) to (359, 618)
Your task to perform on an android device: Search for razer blackwidow on ebay, select the first entry, add it to the cart, then select checkout. Image 29: 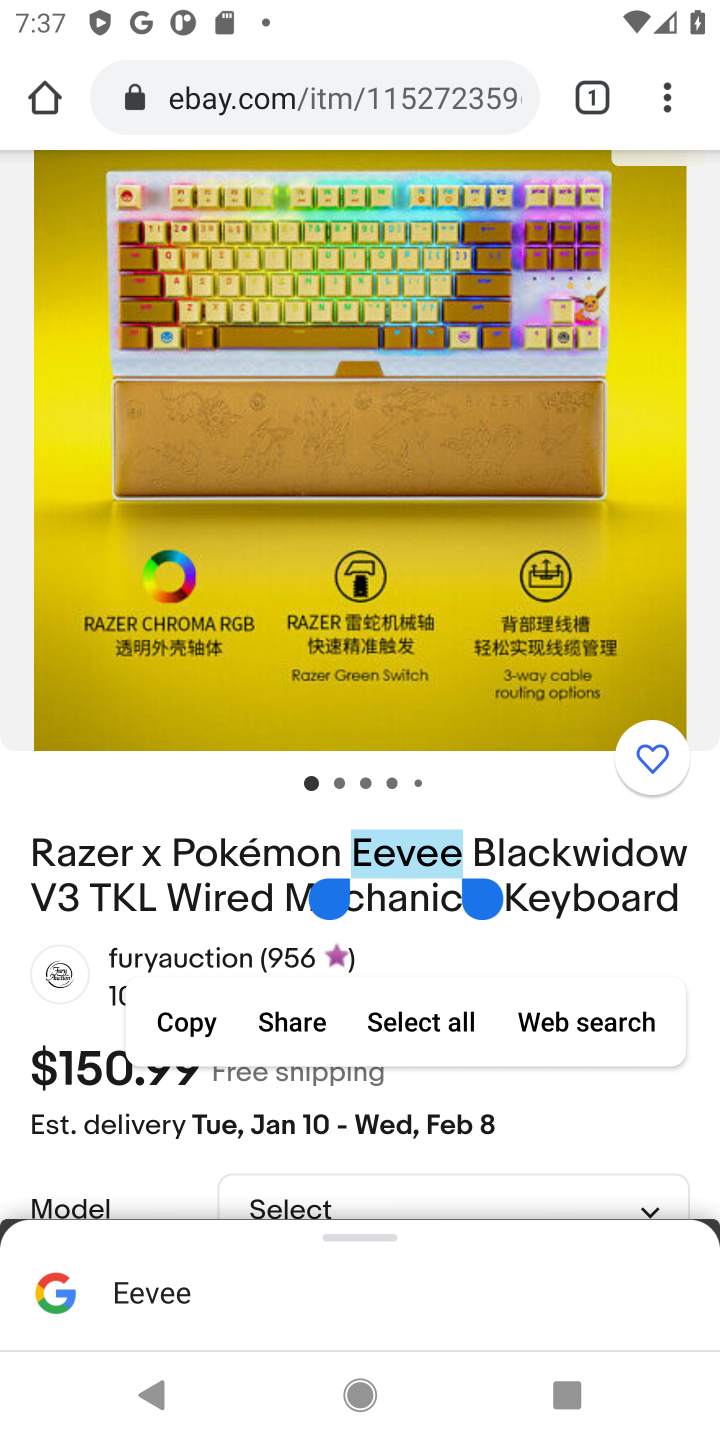
Step 29: click (617, 1137)
Your task to perform on an android device: Search for razer blackwidow on ebay, select the first entry, add it to the cart, then select checkout. Image 30: 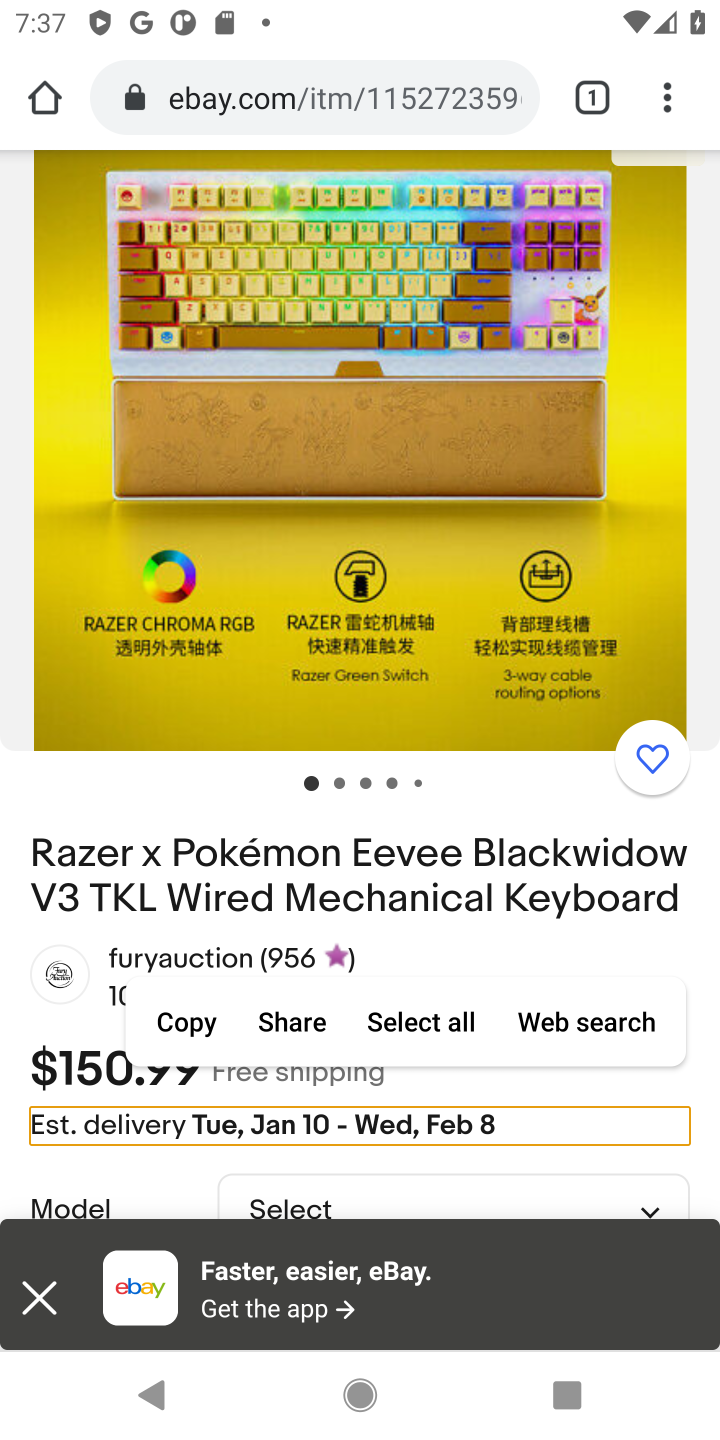
Step 30: drag from (617, 1138) to (486, 814)
Your task to perform on an android device: Search for razer blackwidow on ebay, select the first entry, add it to the cart, then select checkout. Image 31: 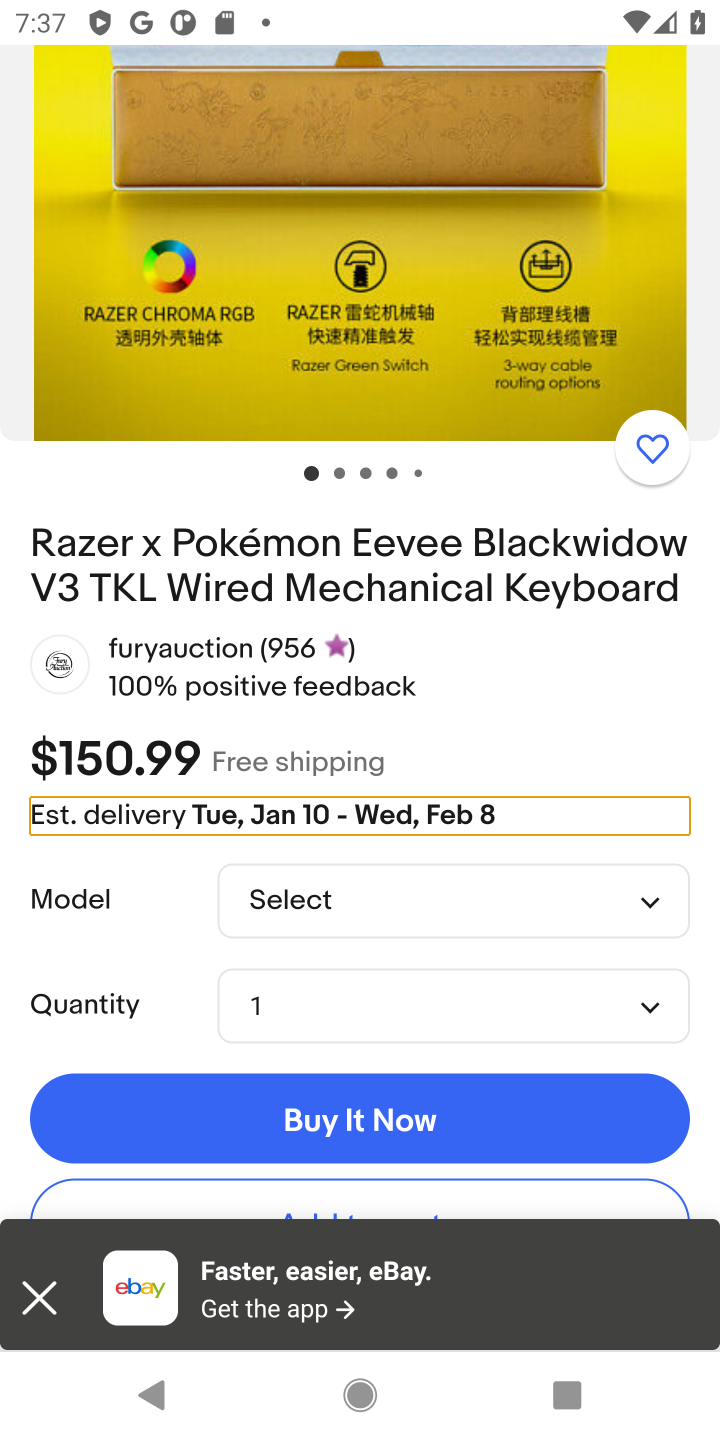
Step 31: drag from (113, 921) to (88, 631)
Your task to perform on an android device: Search for razer blackwidow on ebay, select the first entry, add it to the cart, then select checkout. Image 32: 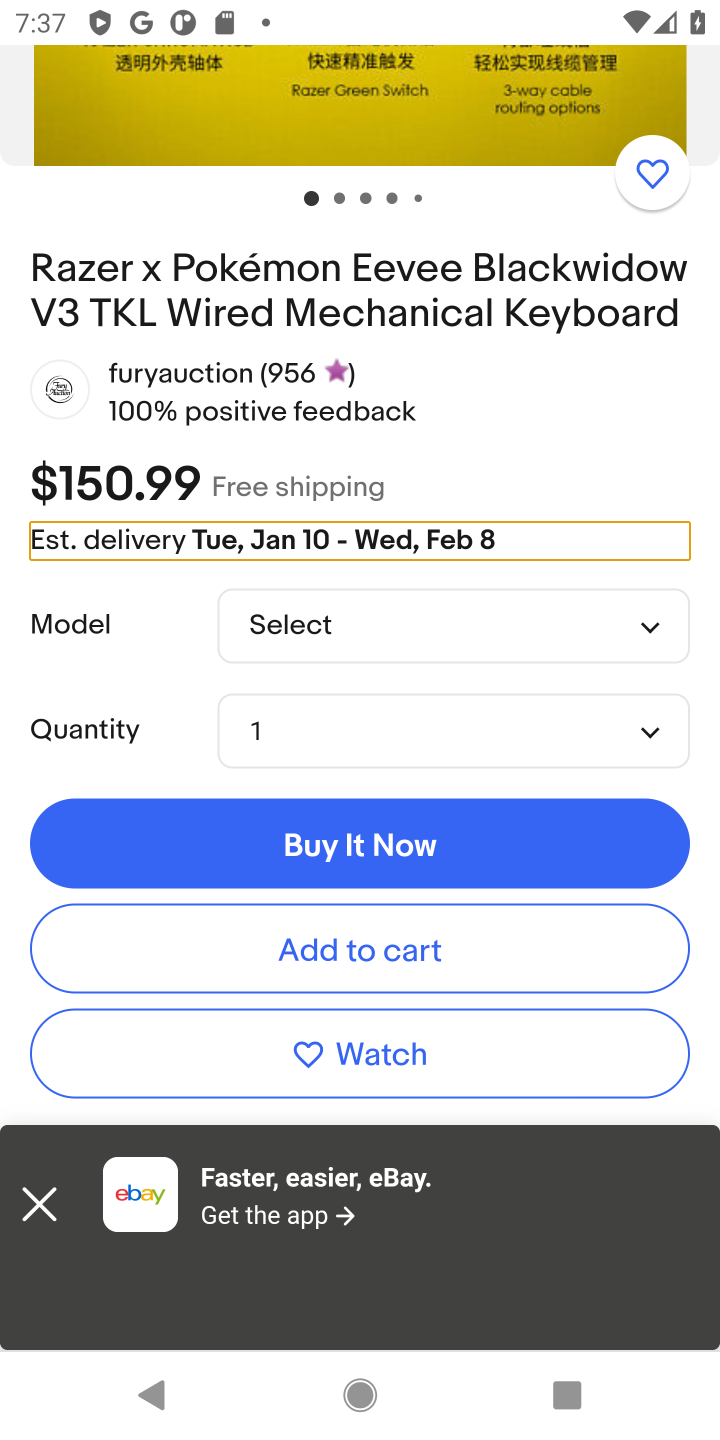
Step 32: click (372, 615)
Your task to perform on an android device: Search for razer blackwidow on ebay, select the first entry, add it to the cart, then select checkout. Image 33: 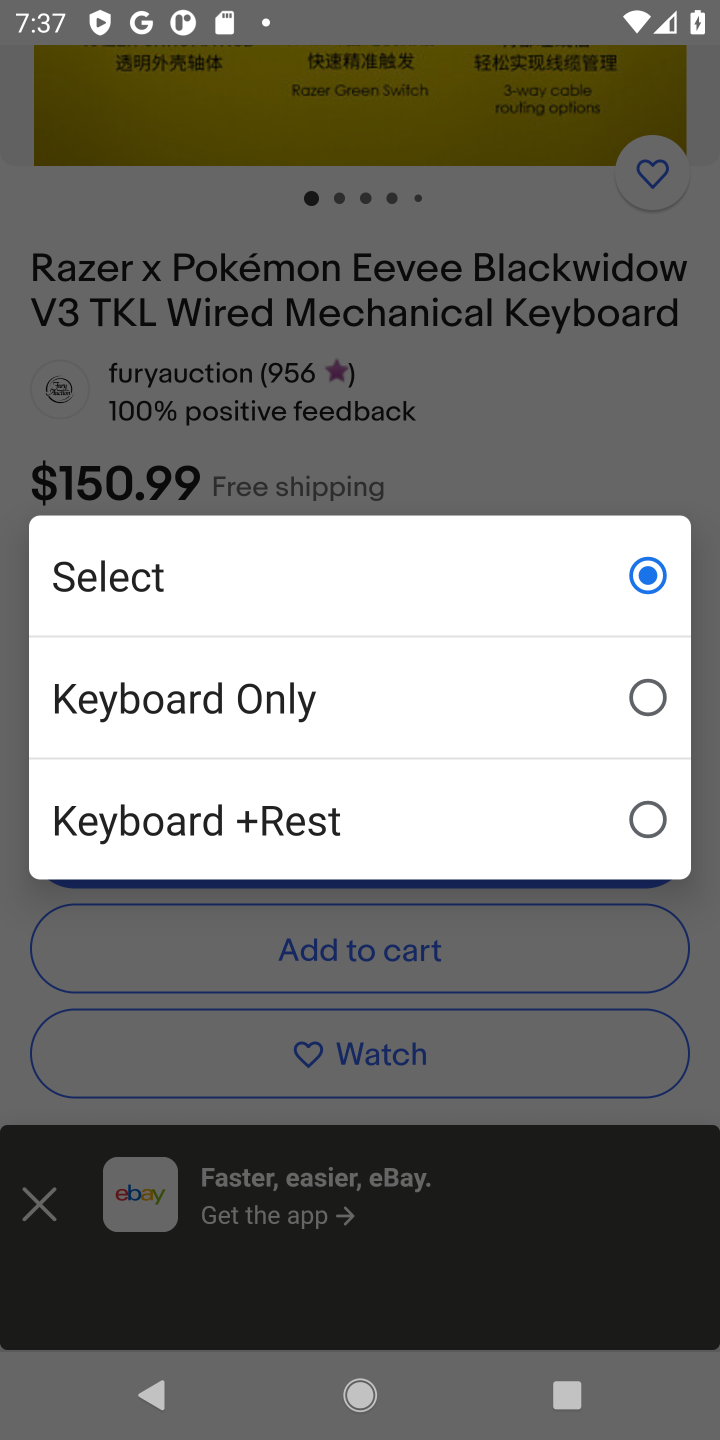
Step 33: click (335, 688)
Your task to perform on an android device: Search for razer blackwidow on ebay, select the first entry, add it to the cart, then select checkout. Image 34: 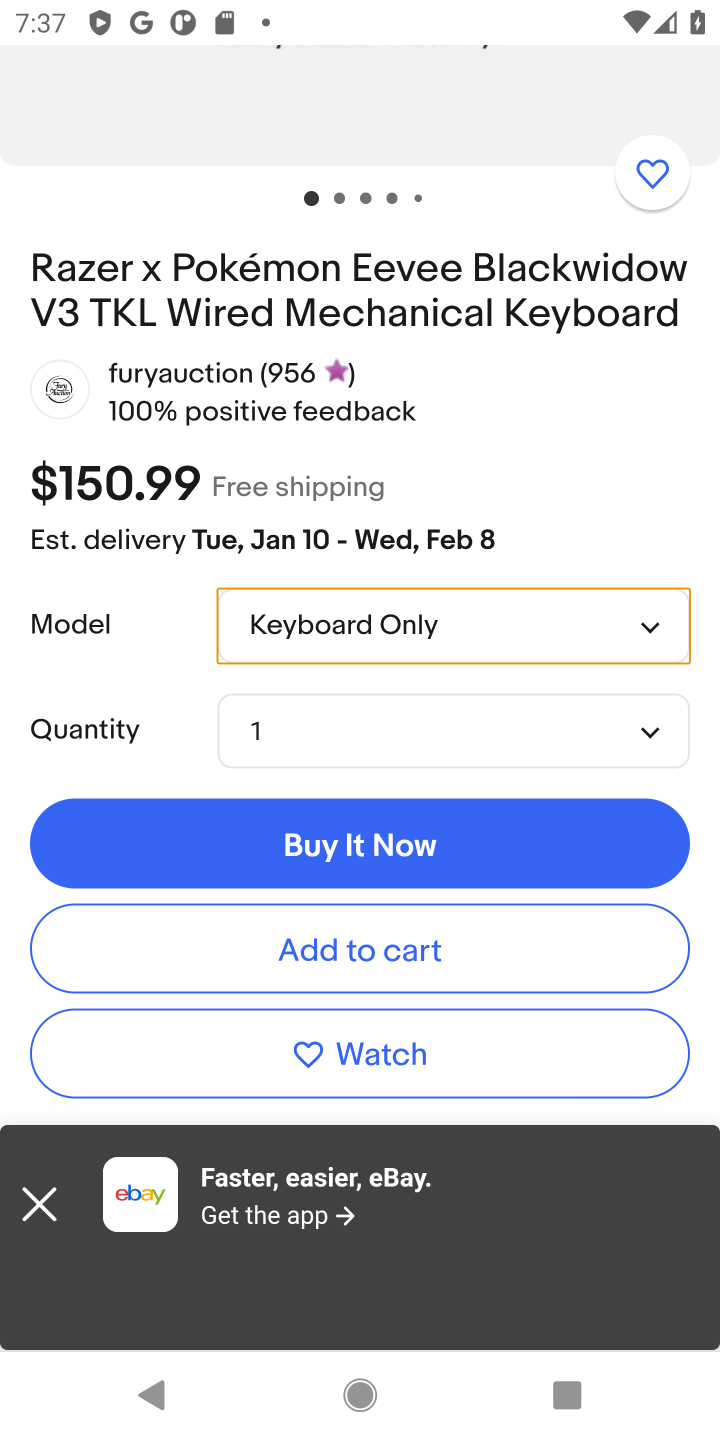
Step 34: click (398, 938)
Your task to perform on an android device: Search for razer blackwidow on ebay, select the first entry, add it to the cart, then select checkout. Image 35: 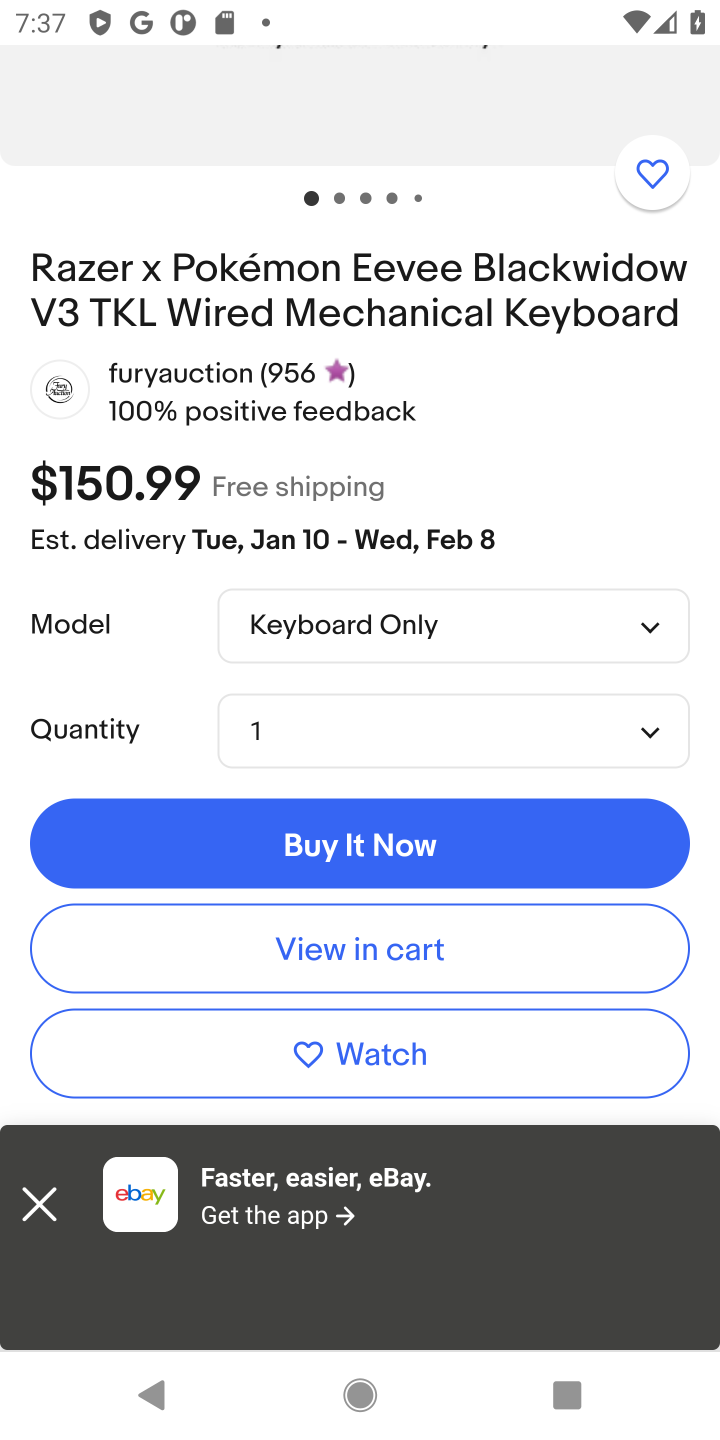
Step 35: click (398, 938)
Your task to perform on an android device: Search for razer blackwidow on ebay, select the first entry, add it to the cart, then select checkout. Image 36: 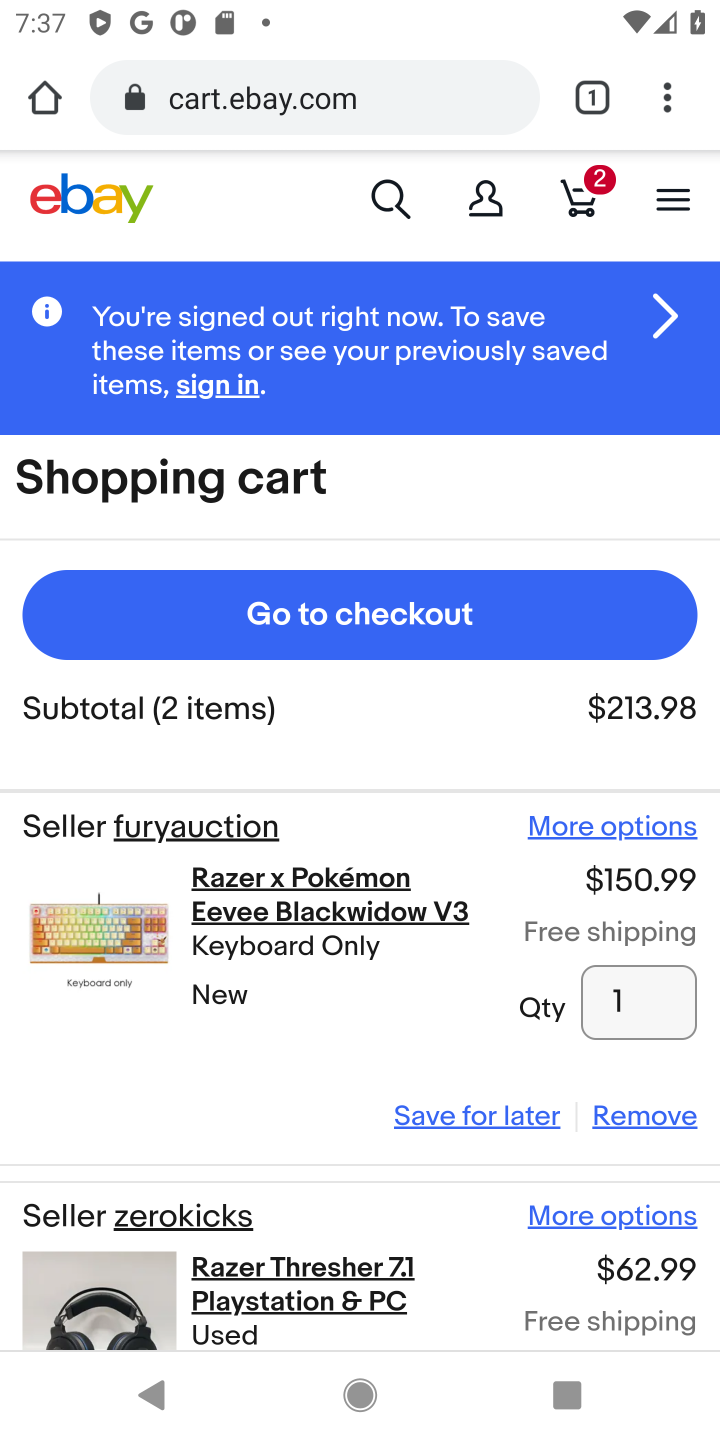
Step 36: click (402, 631)
Your task to perform on an android device: Search for razer blackwidow on ebay, select the first entry, add it to the cart, then select checkout. Image 37: 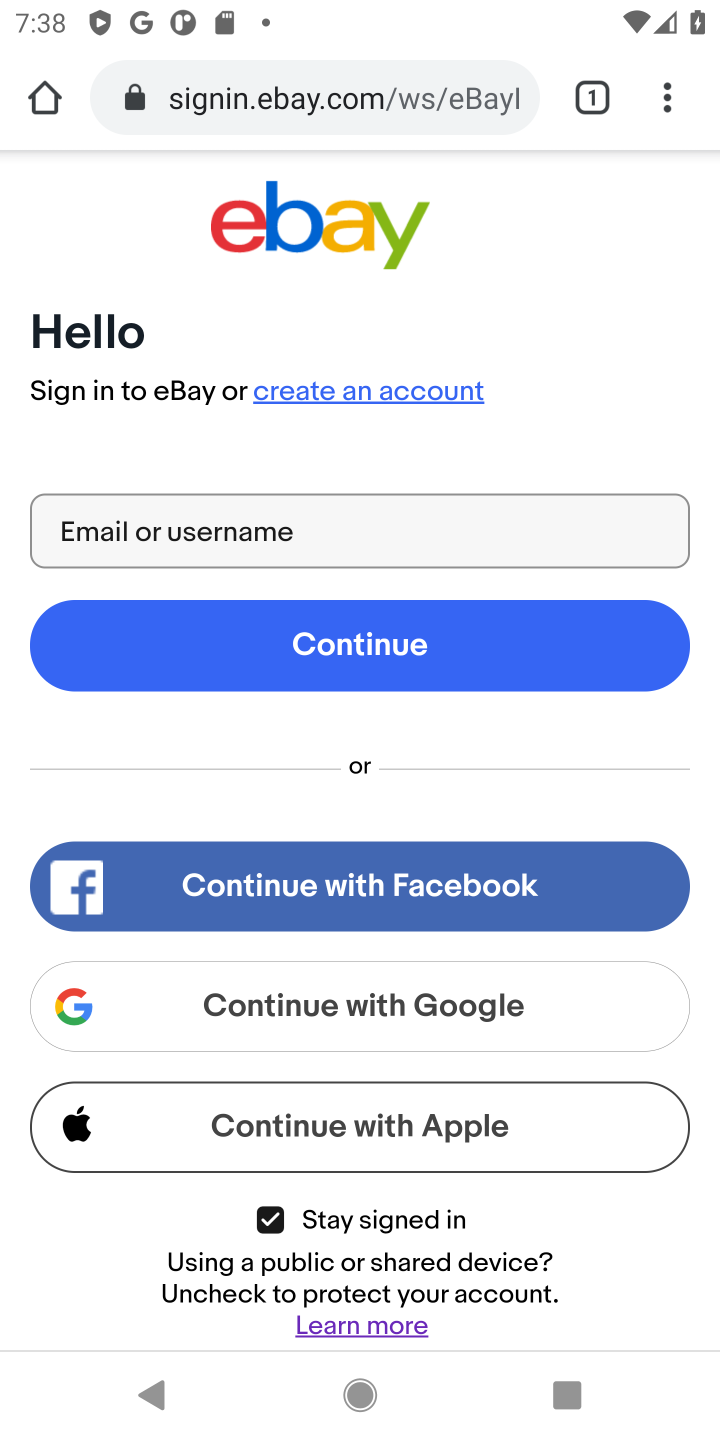
Step 37: task complete